Your task to perform on an android device: What's the latest video from Game Informer? Image 0: 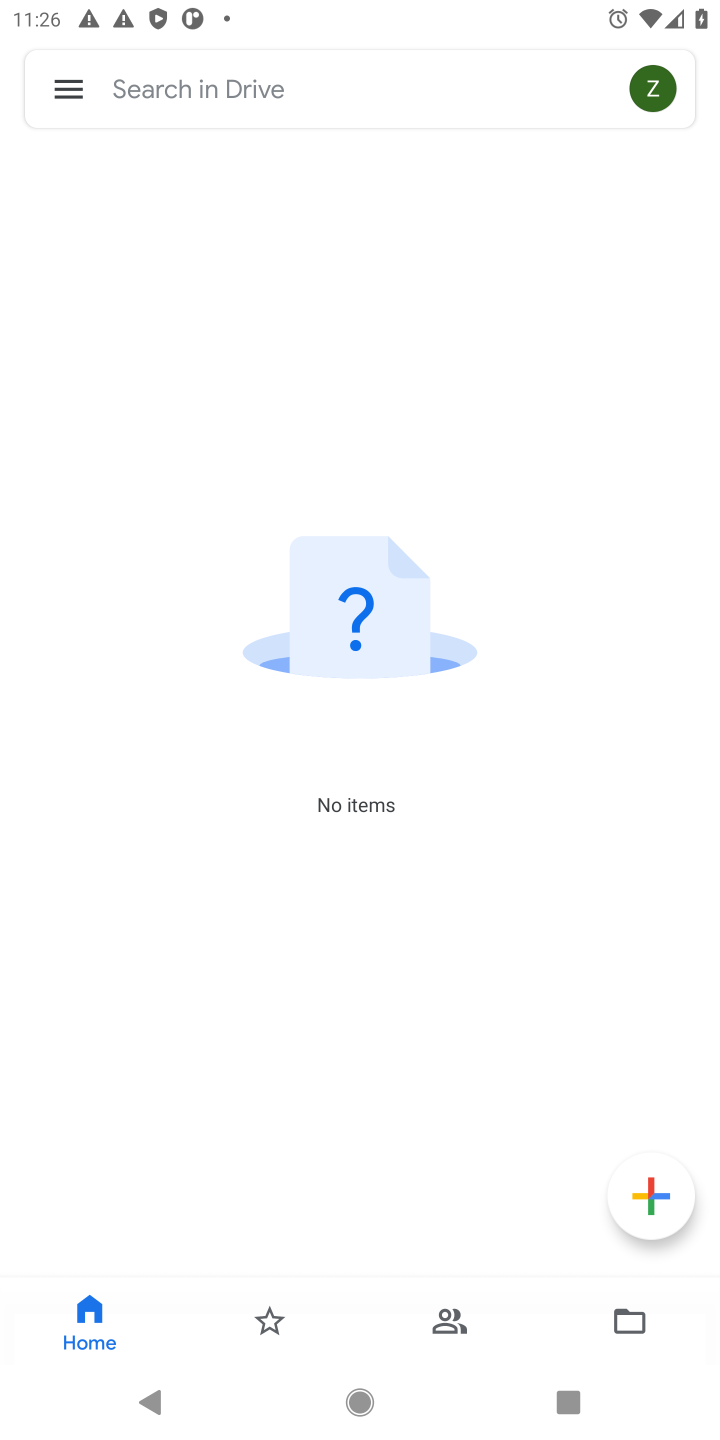
Step 0: press home button
Your task to perform on an android device: What's the latest video from Game Informer? Image 1: 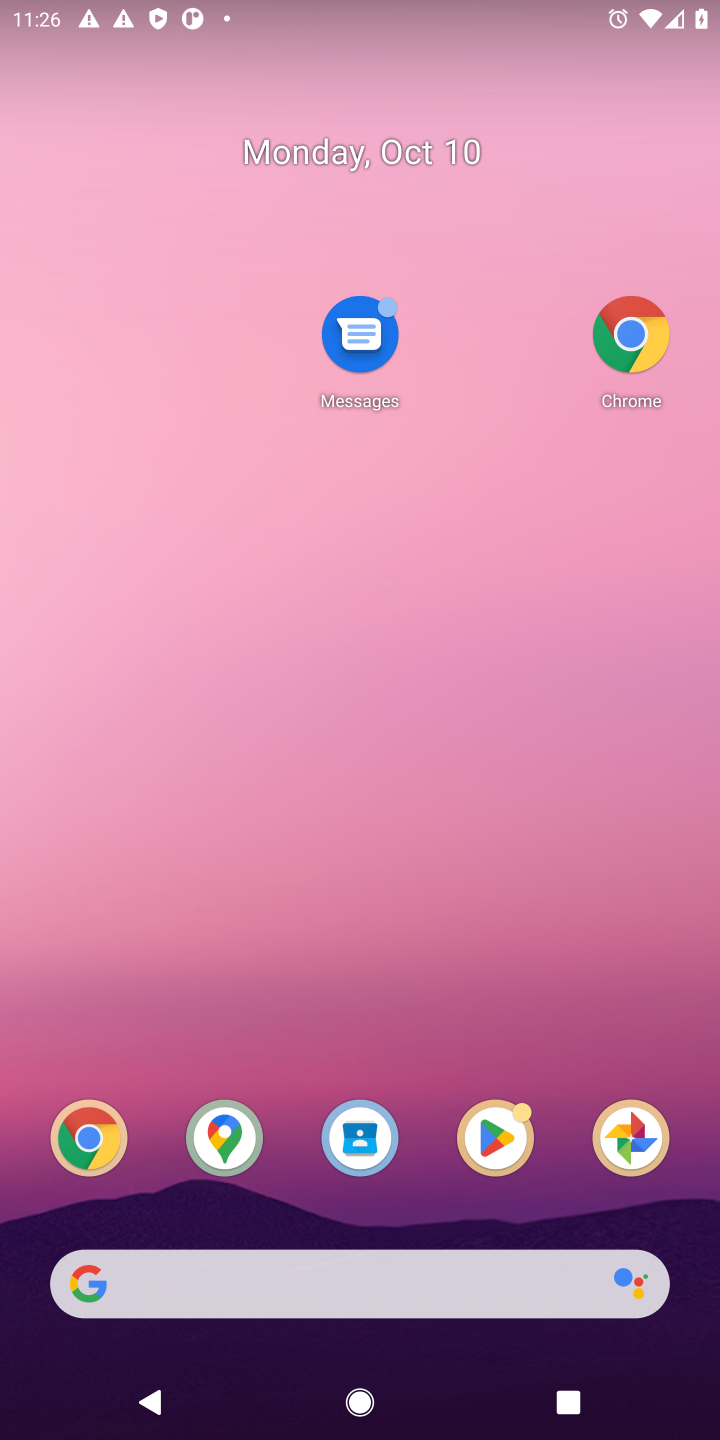
Step 1: click (614, 343)
Your task to perform on an android device: What's the latest video from Game Informer? Image 2: 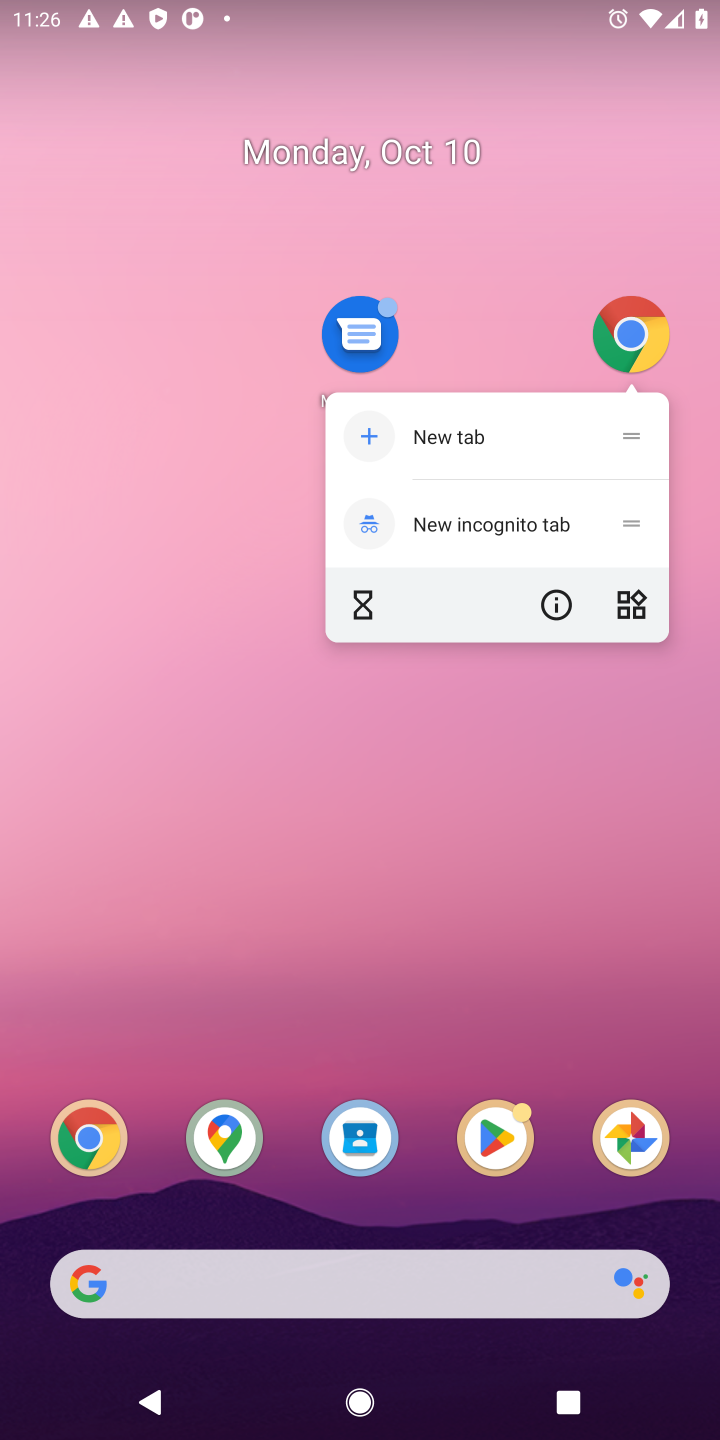
Step 2: click (627, 351)
Your task to perform on an android device: What's the latest video from Game Informer? Image 3: 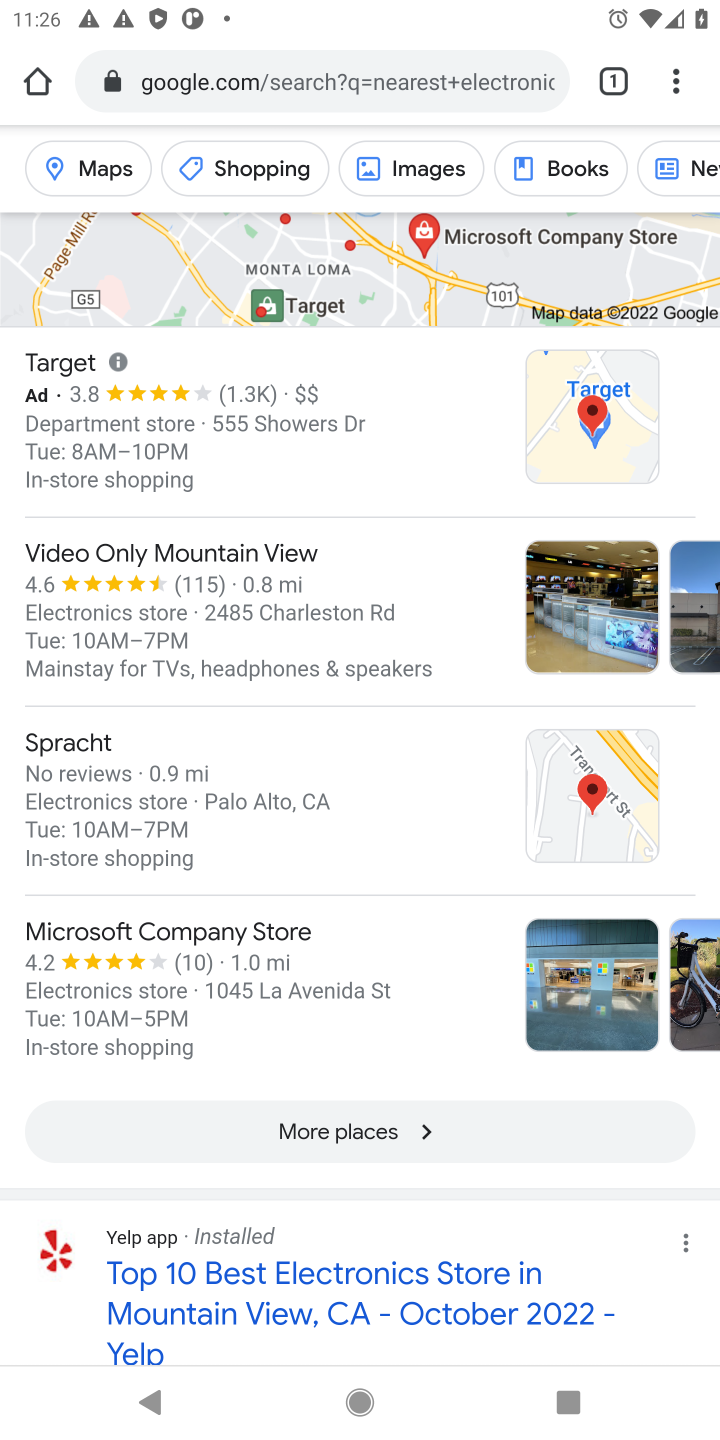
Step 3: click (406, 80)
Your task to perform on an android device: What's the latest video from Game Informer? Image 4: 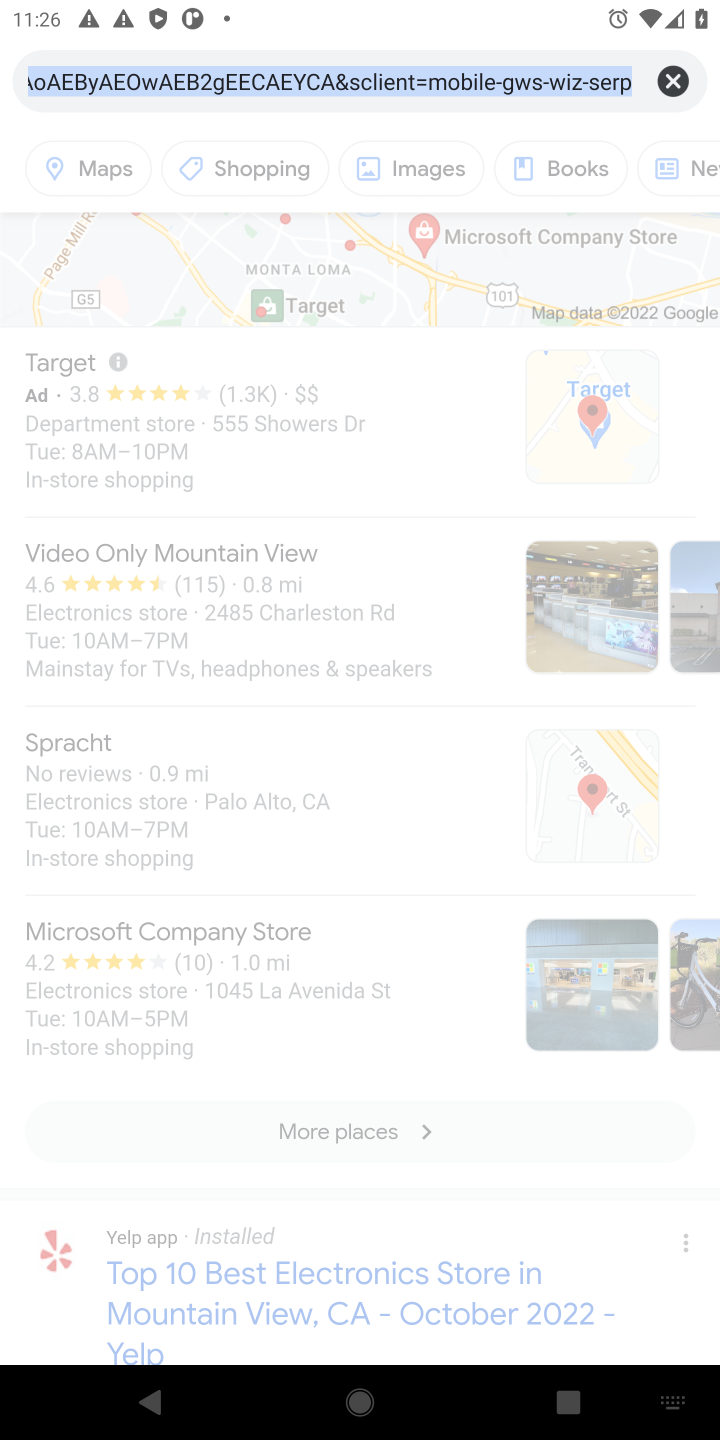
Step 4: type "game informer"
Your task to perform on an android device: What's the latest video from Game Informer? Image 5: 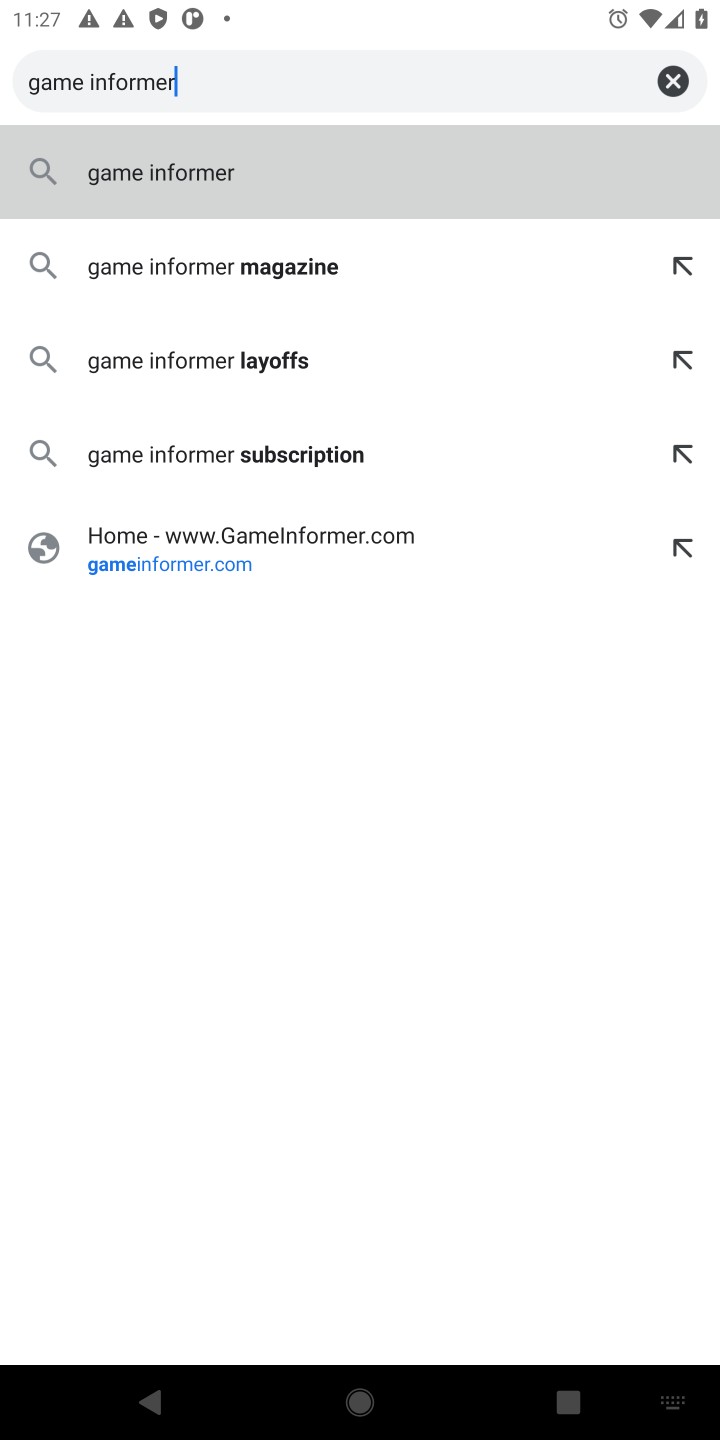
Step 5: press enter
Your task to perform on an android device: What's the latest video from Game Informer? Image 6: 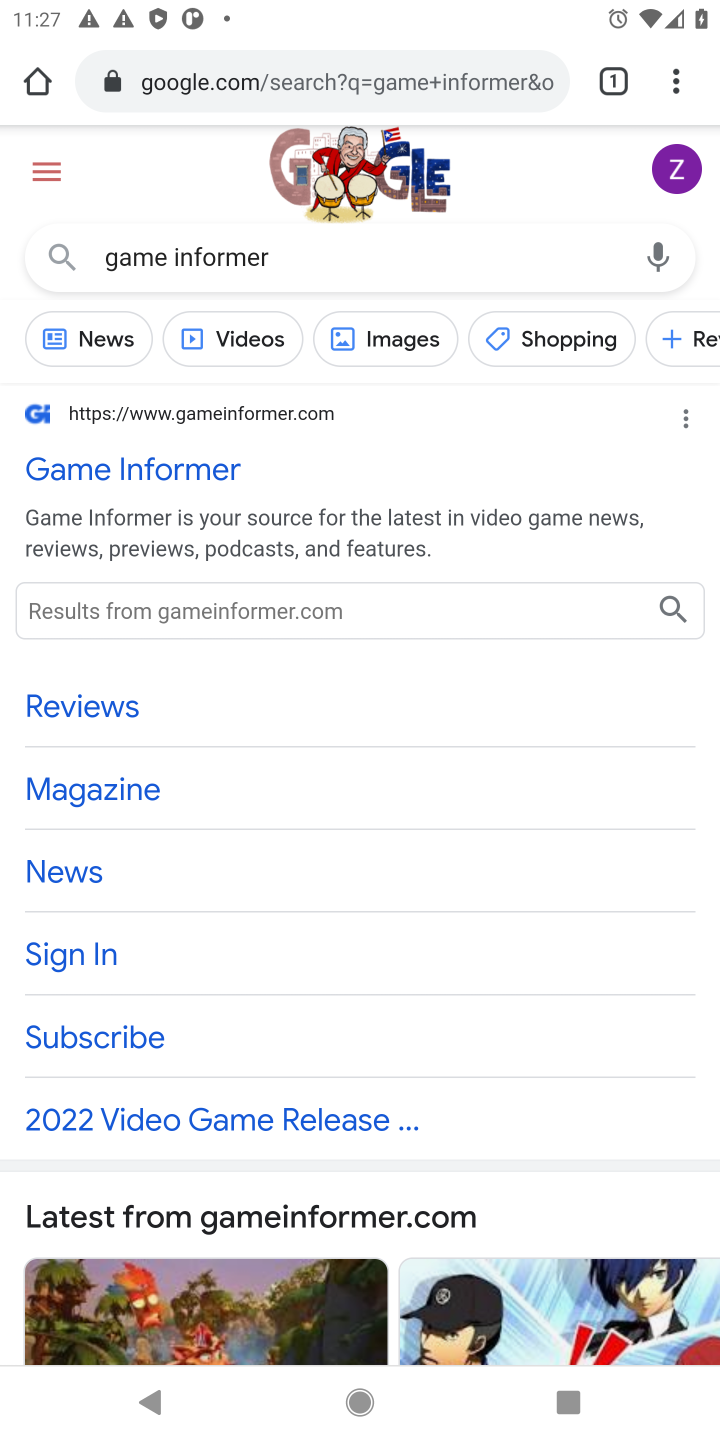
Step 6: drag from (346, 949) to (354, 475)
Your task to perform on an android device: What's the latest video from Game Informer? Image 7: 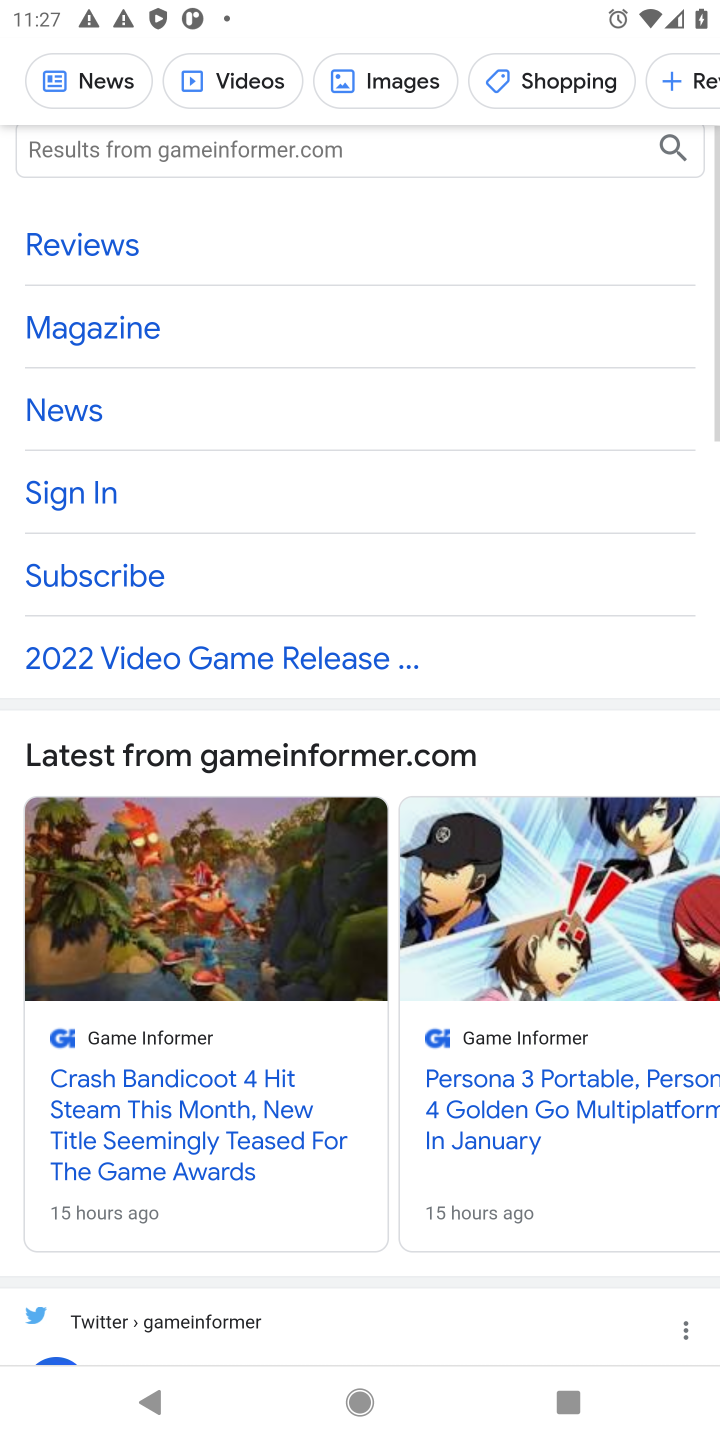
Step 7: drag from (449, 891) to (470, 294)
Your task to perform on an android device: What's the latest video from Game Informer? Image 8: 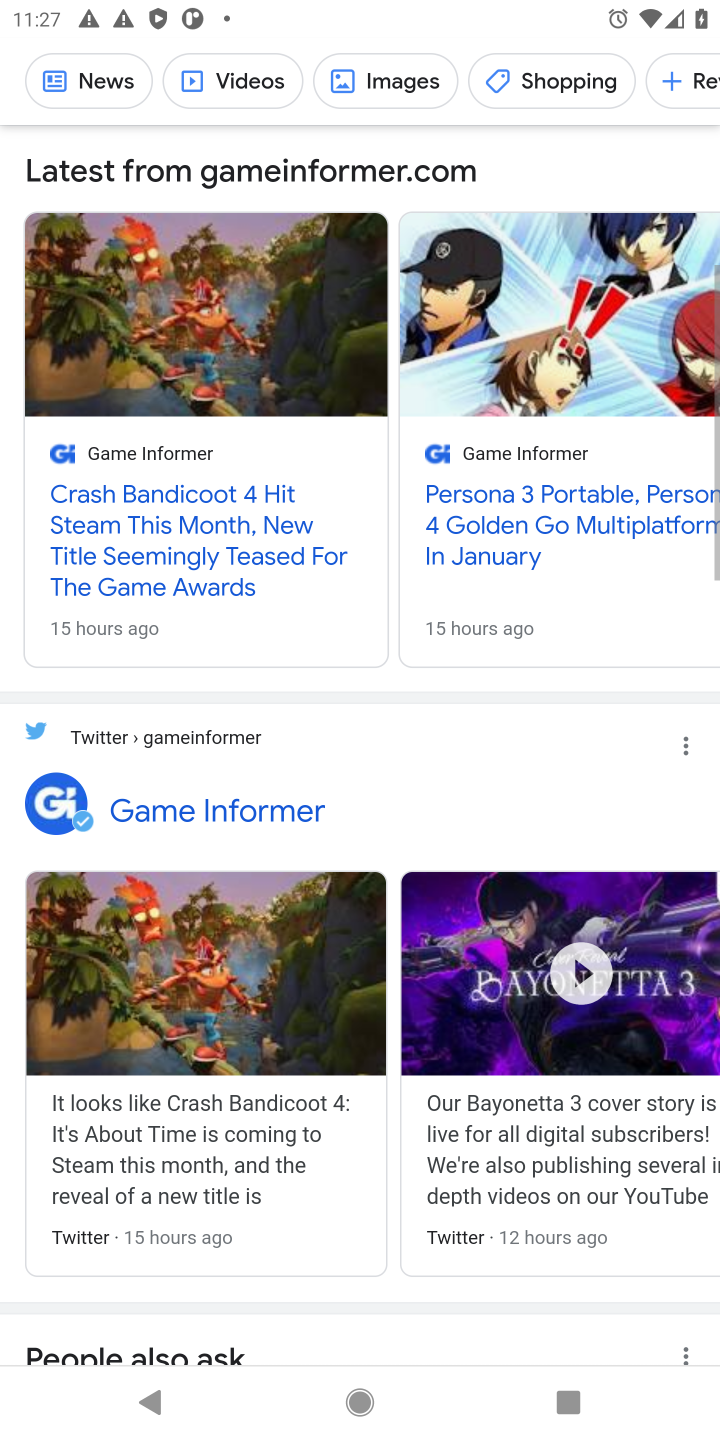
Step 8: drag from (412, 878) to (382, 345)
Your task to perform on an android device: What's the latest video from Game Informer? Image 9: 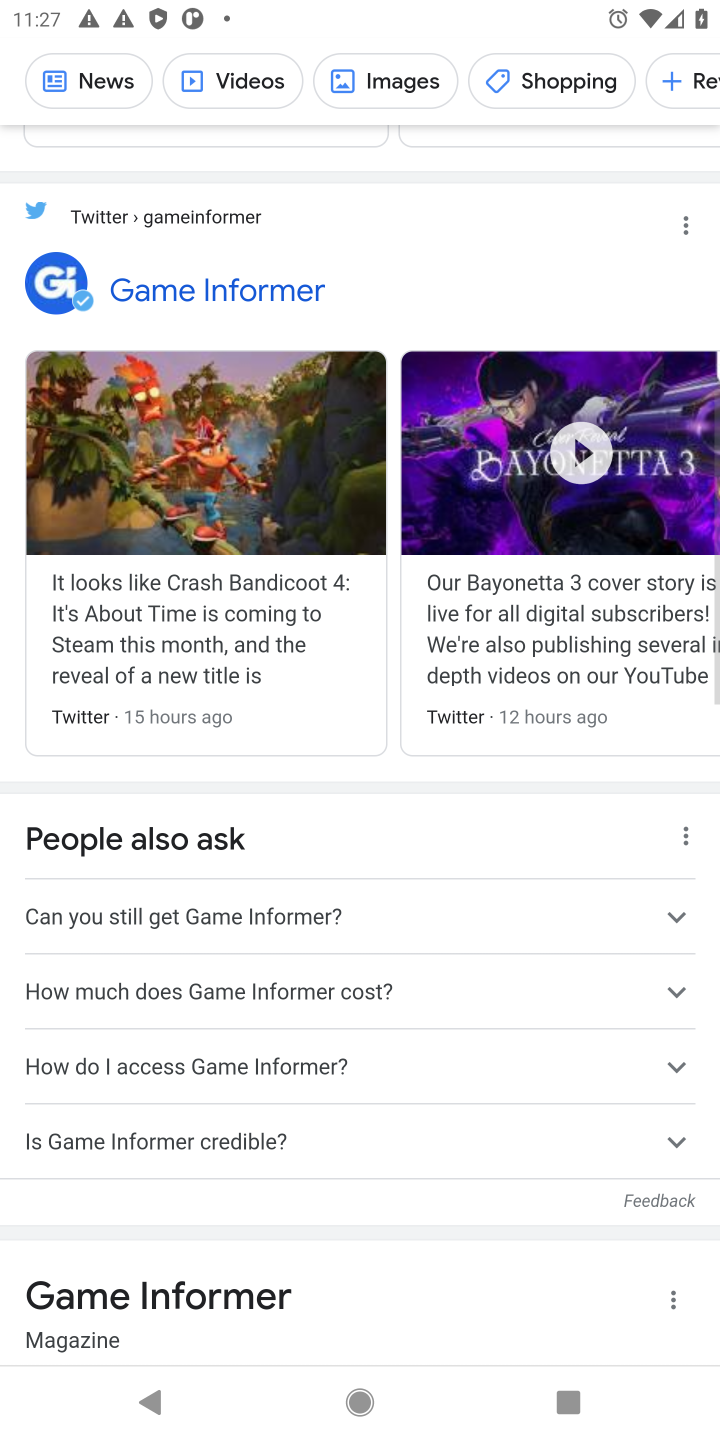
Step 9: drag from (429, 1032) to (371, 313)
Your task to perform on an android device: What's the latest video from Game Informer? Image 10: 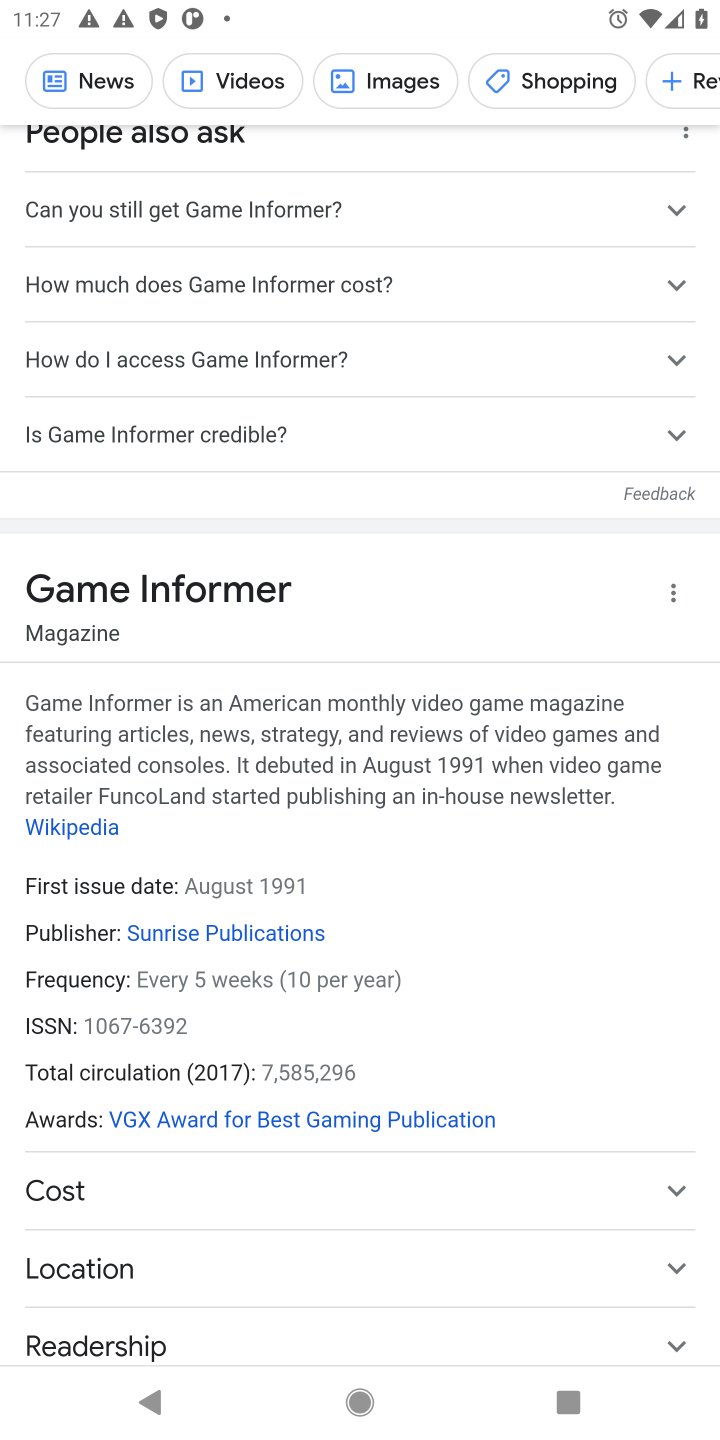
Step 10: drag from (425, 929) to (381, 427)
Your task to perform on an android device: What's the latest video from Game Informer? Image 11: 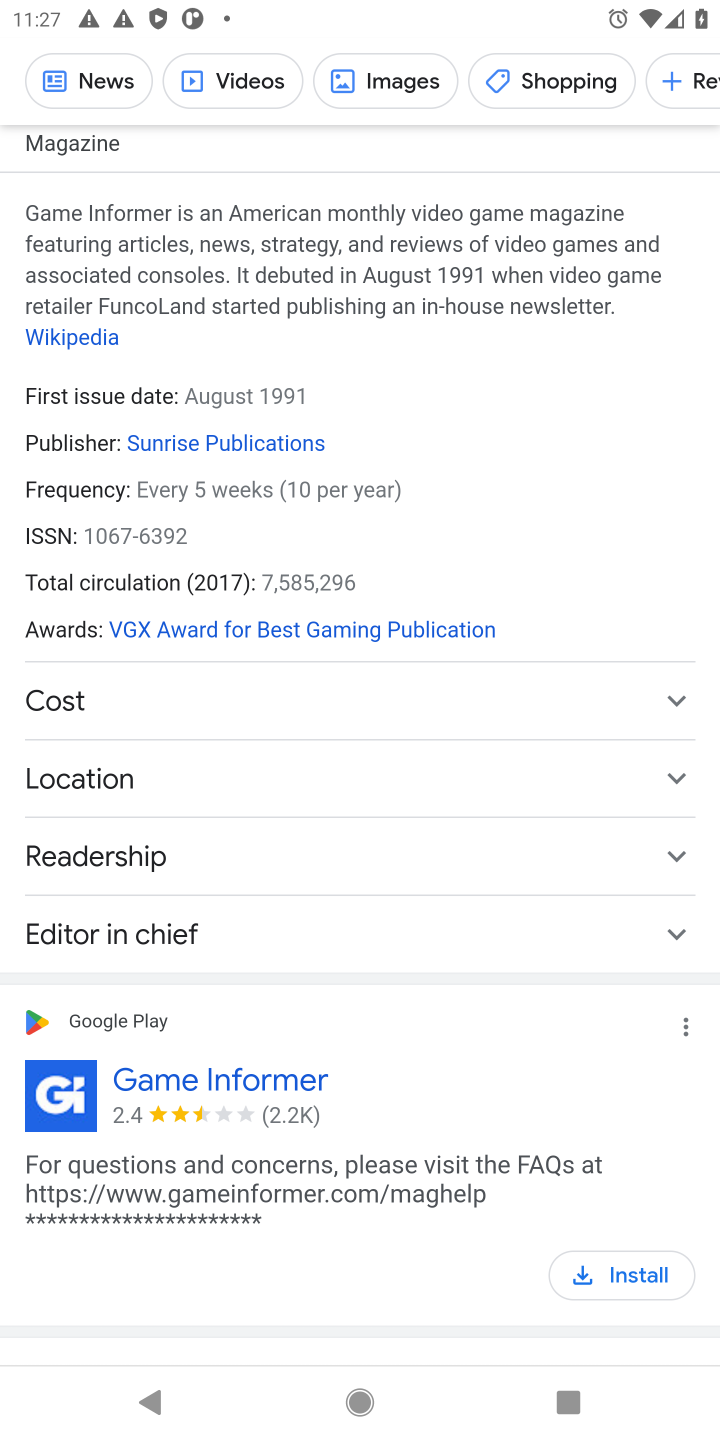
Step 11: drag from (543, 984) to (507, 388)
Your task to perform on an android device: What's the latest video from Game Informer? Image 12: 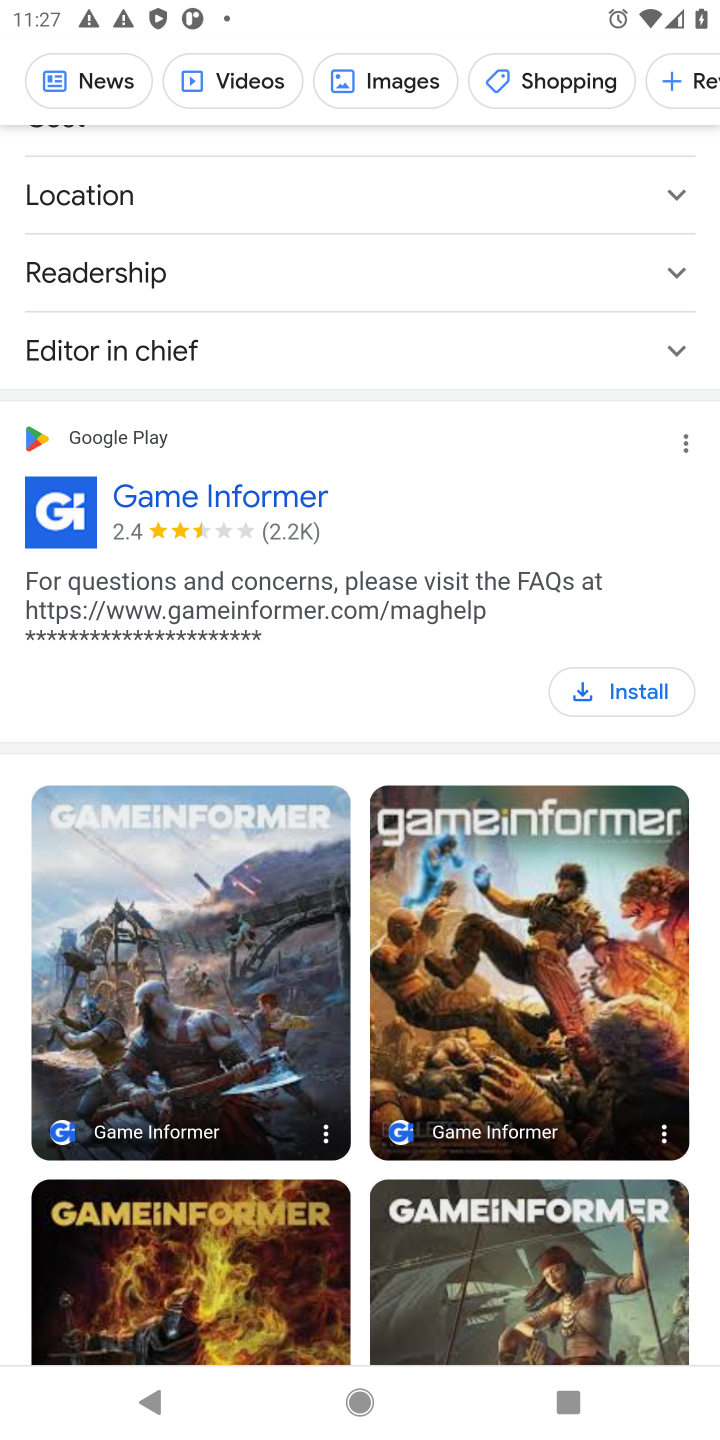
Step 12: drag from (395, 924) to (365, 296)
Your task to perform on an android device: What's the latest video from Game Informer? Image 13: 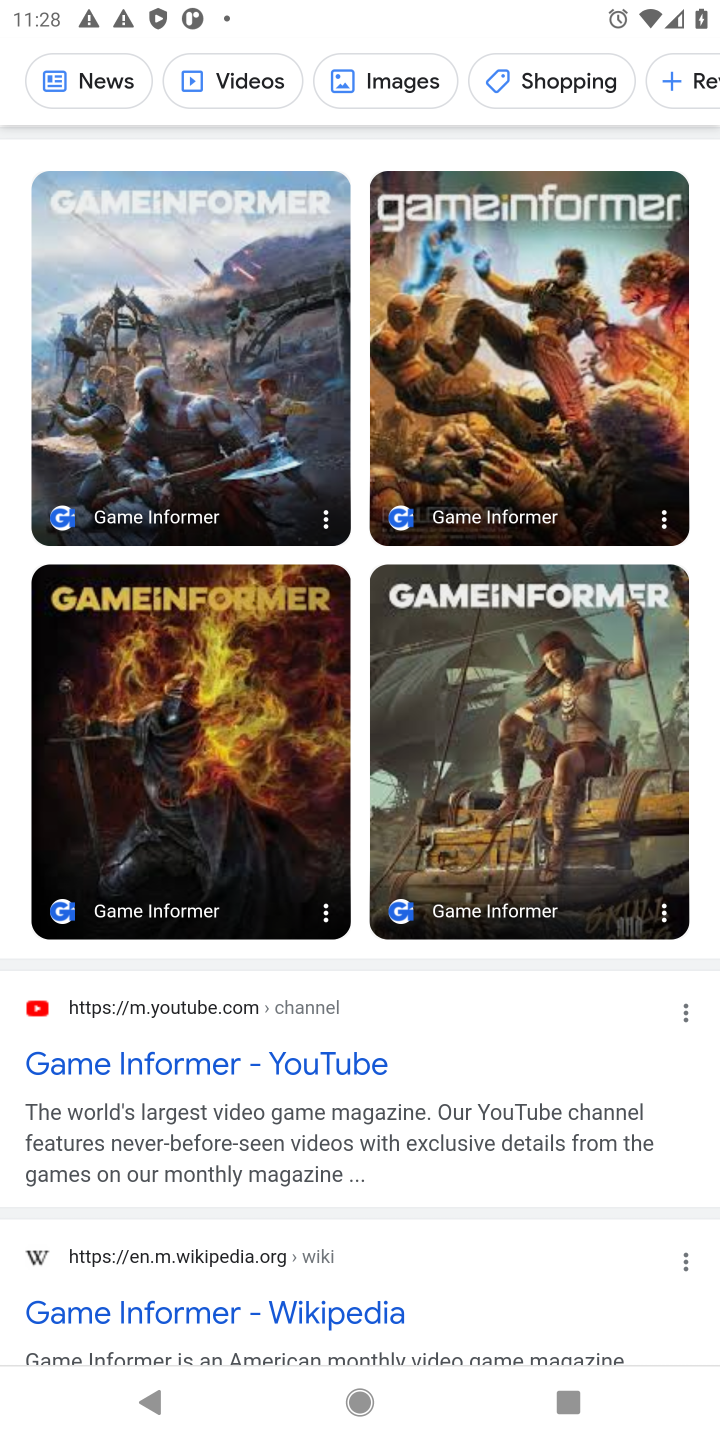
Step 13: click (303, 1067)
Your task to perform on an android device: What's the latest video from Game Informer? Image 14: 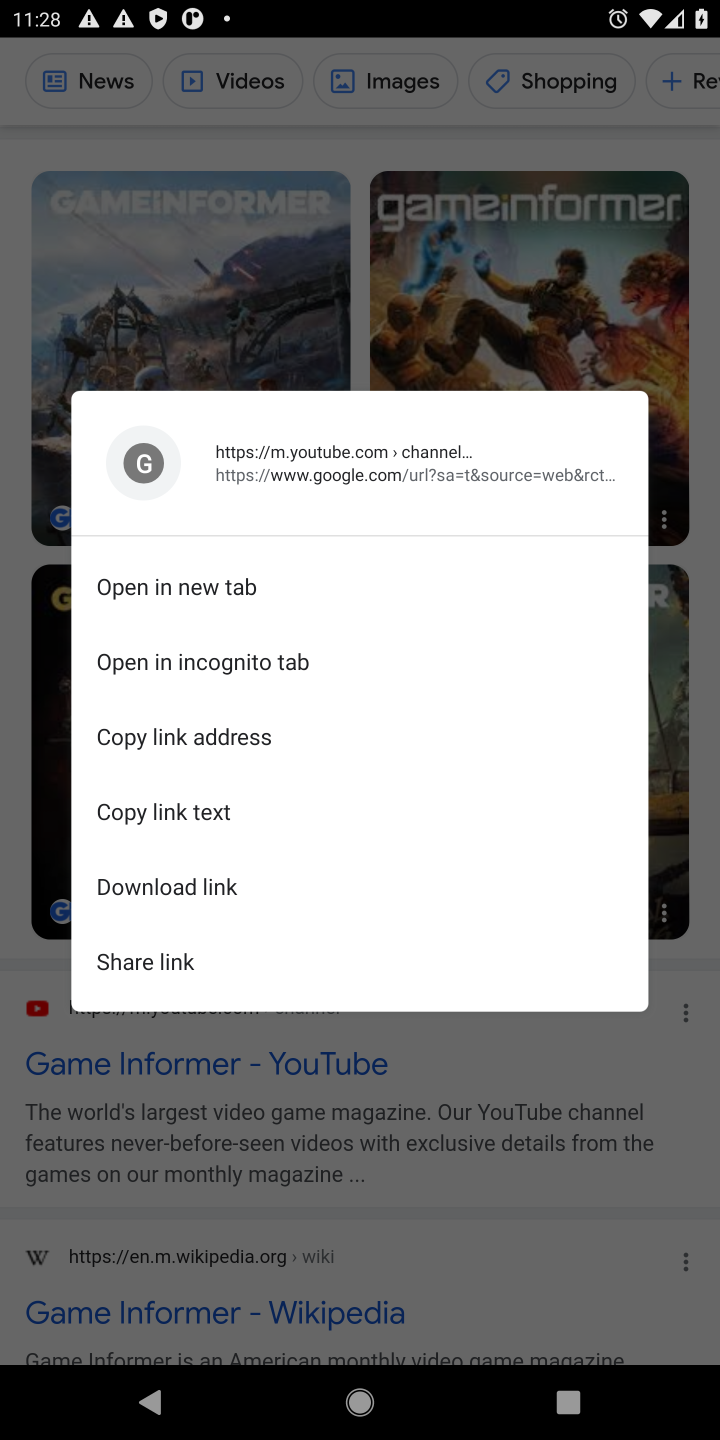
Step 14: click (419, 1142)
Your task to perform on an android device: What's the latest video from Game Informer? Image 15: 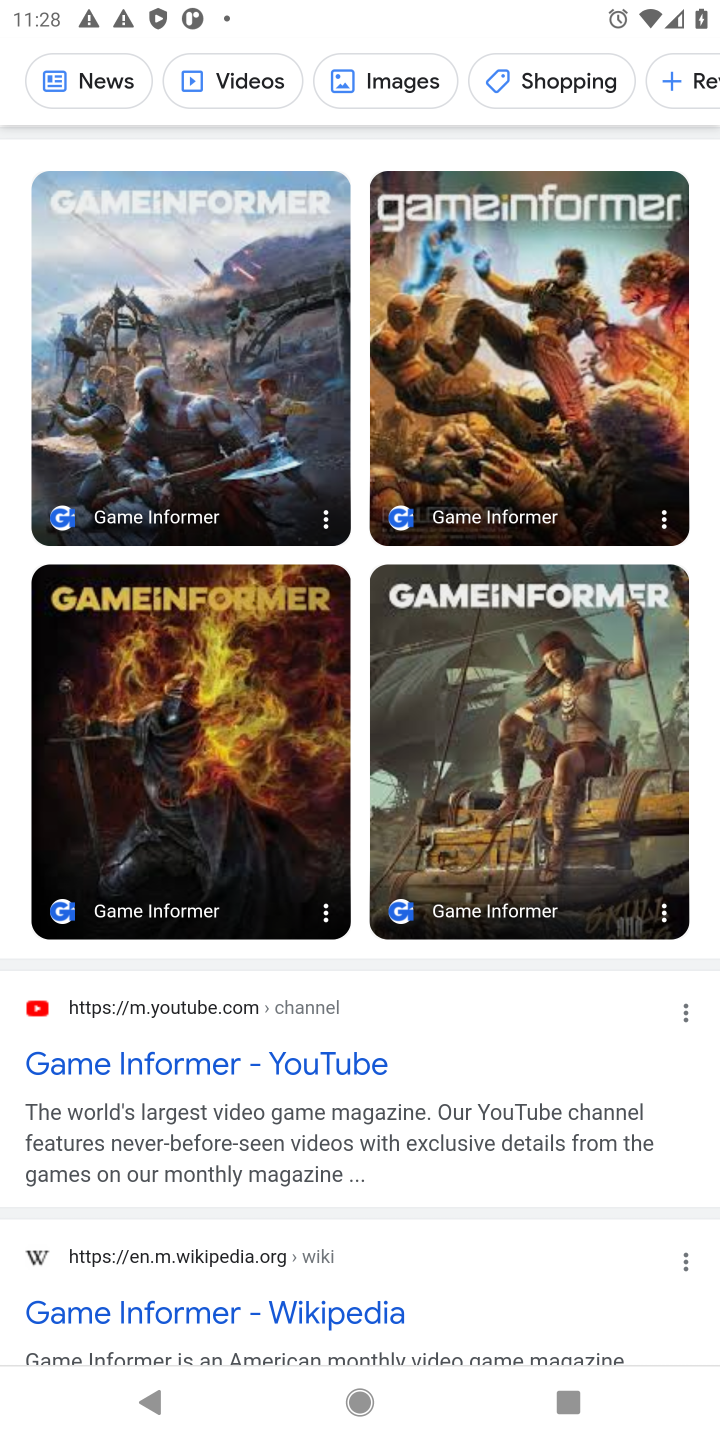
Step 15: click (298, 1062)
Your task to perform on an android device: What's the latest video from Game Informer? Image 16: 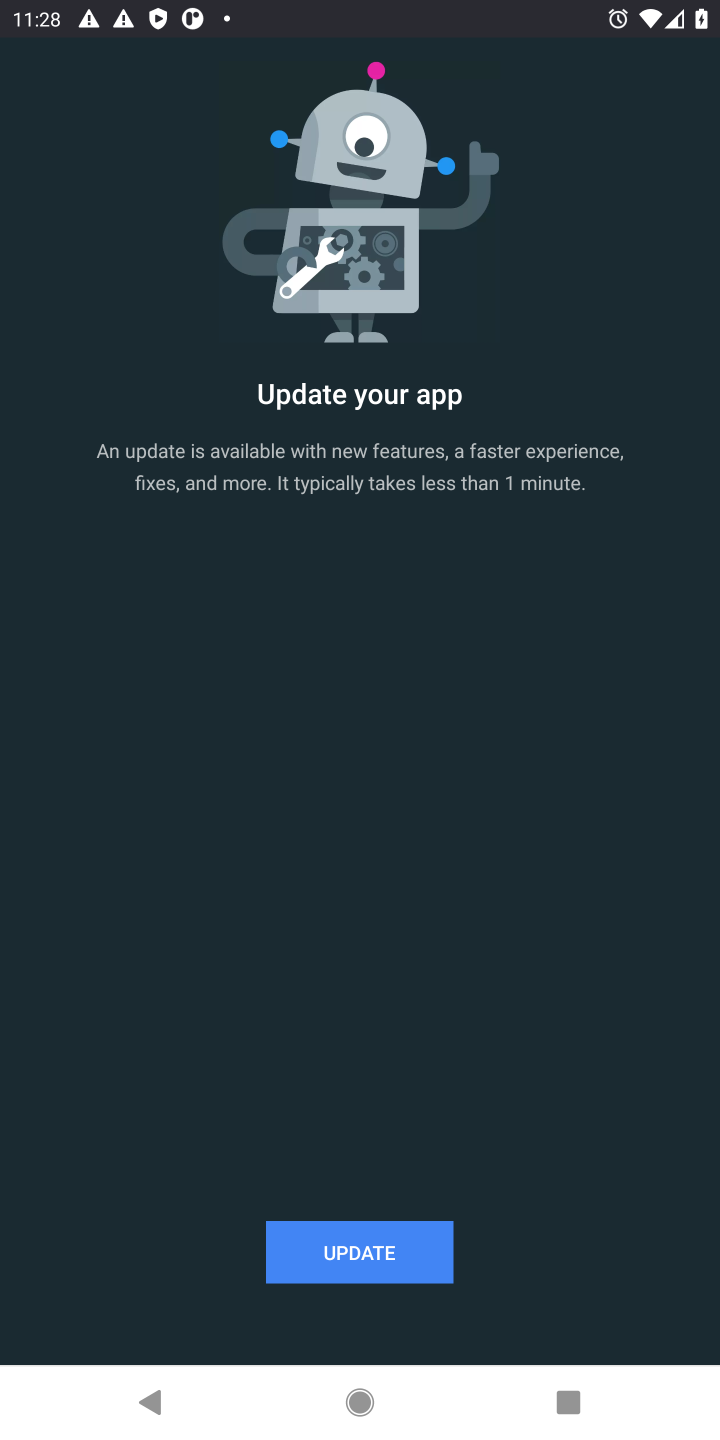
Step 16: click (368, 1260)
Your task to perform on an android device: What's the latest video from Game Informer? Image 17: 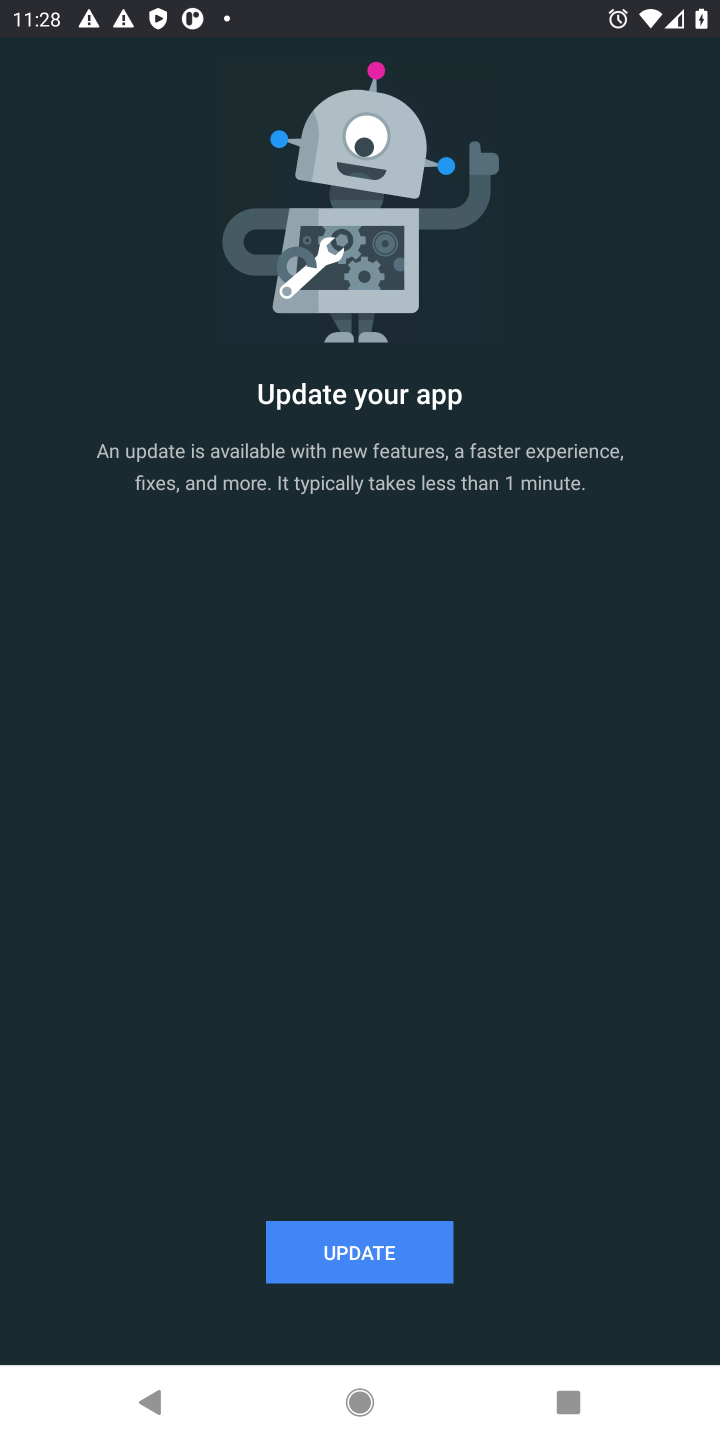
Step 17: press back button
Your task to perform on an android device: What's the latest video from Game Informer? Image 18: 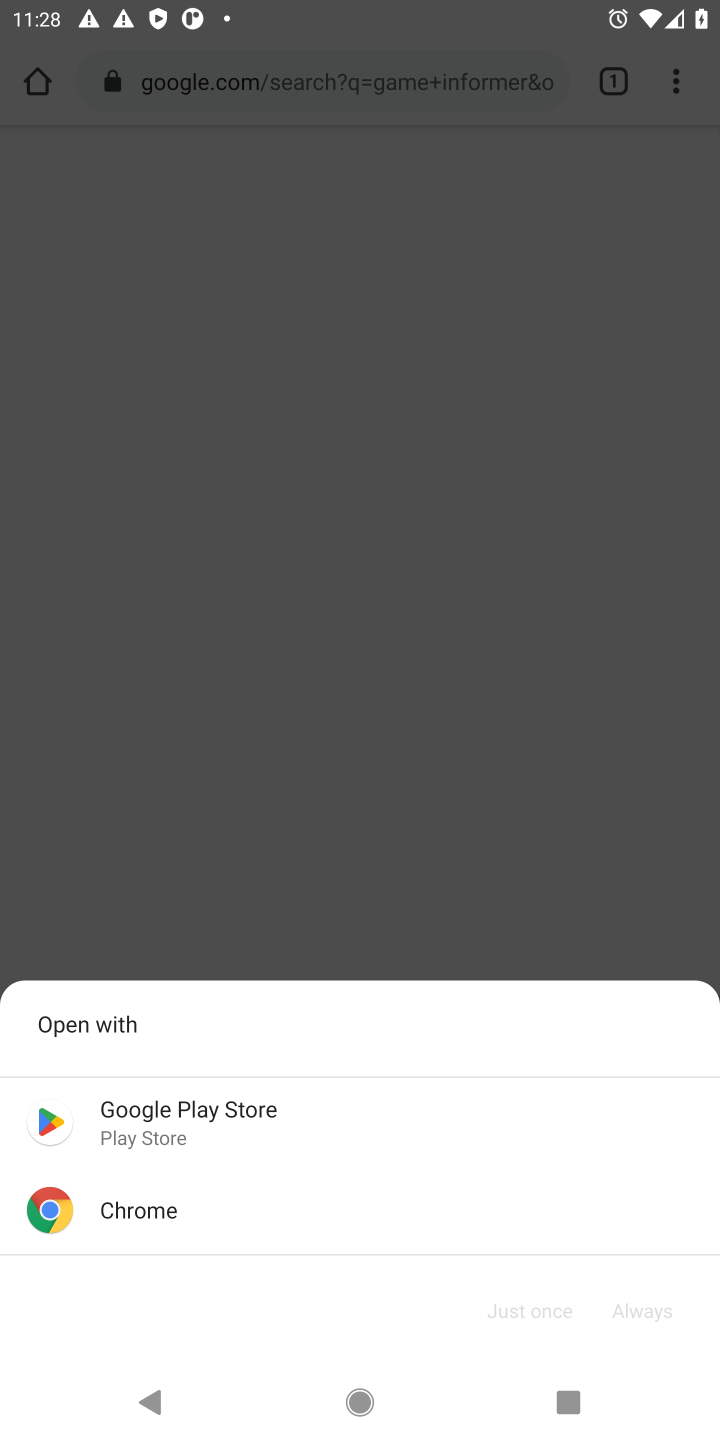
Step 18: click (192, 1223)
Your task to perform on an android device: What's the latest video from Game Informer? Image 19: 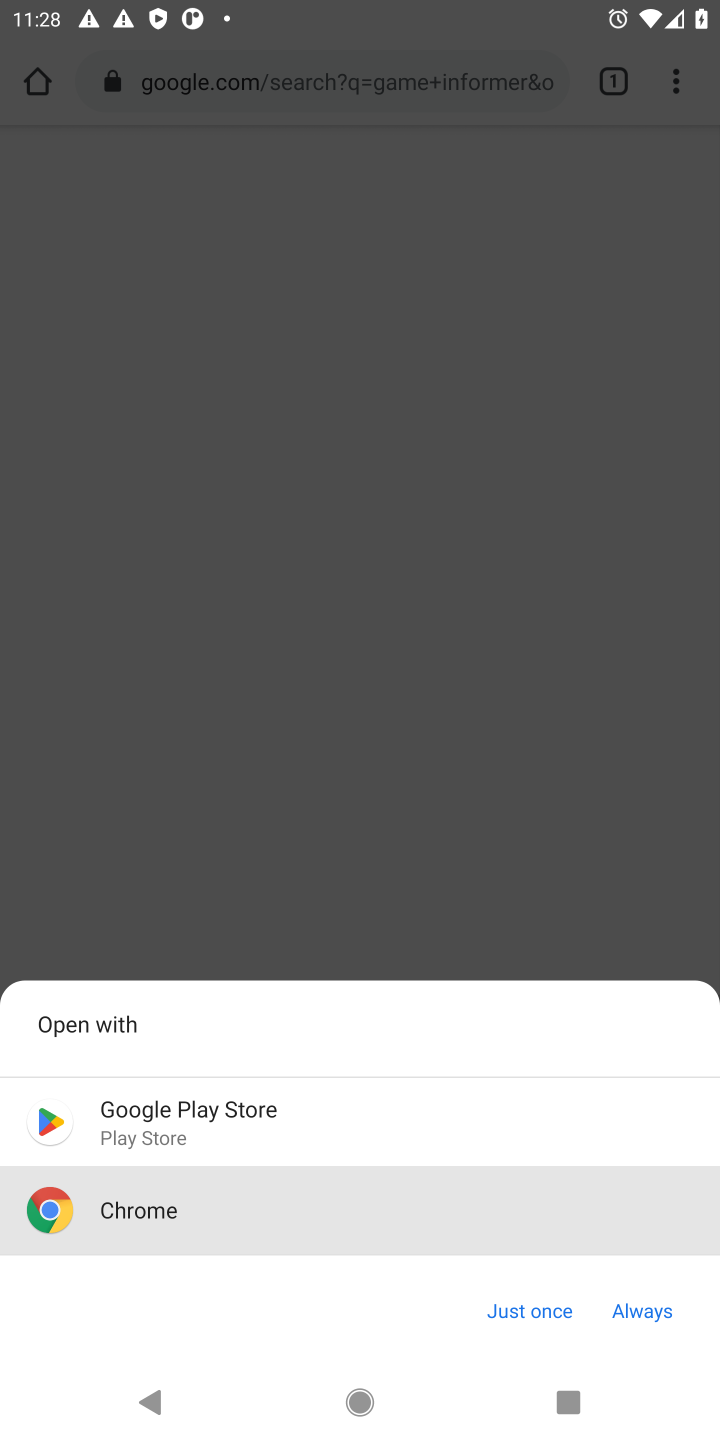
Step 19: click (553, 1305)
Your task to perform on an android device: What's the latest video from Game Informer? Image 20: 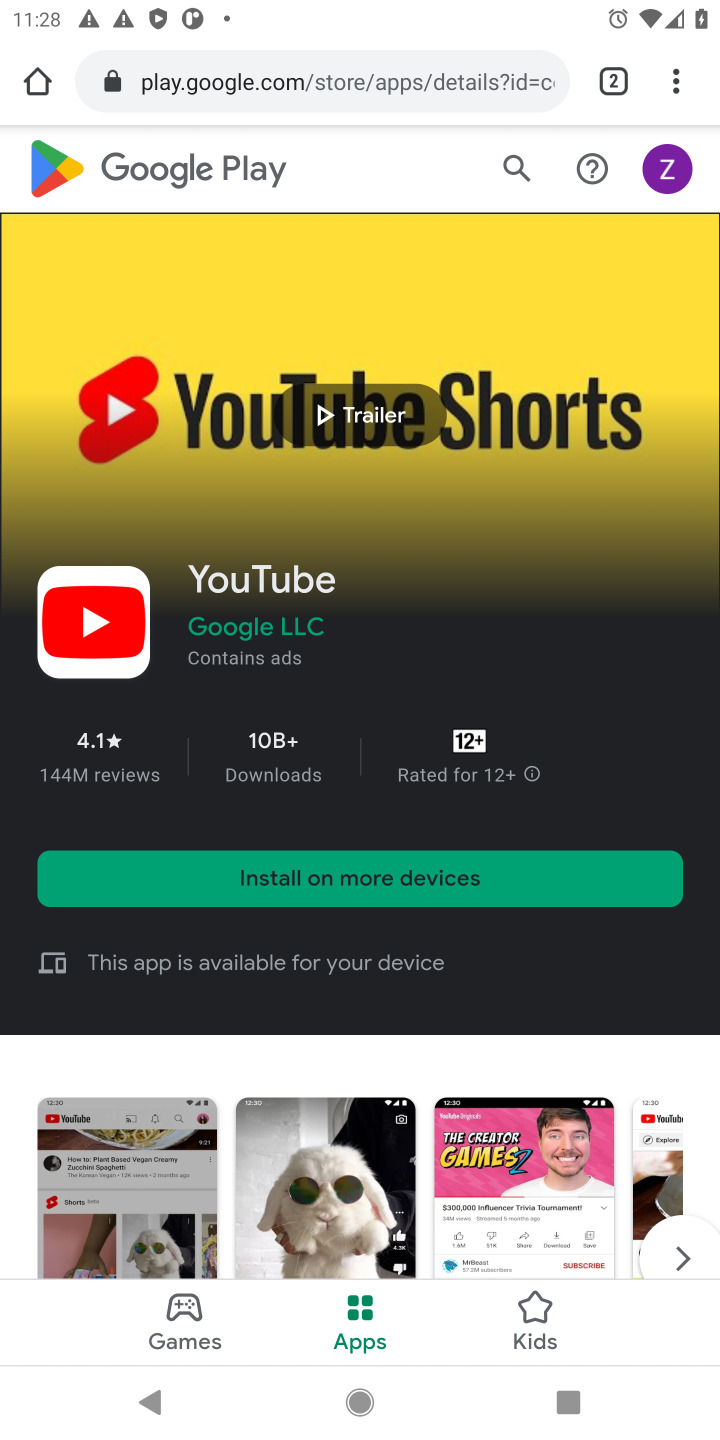
Step 20: press back button
Your task to perform on an android device: What's the latest video from Game Informer? Image 21: 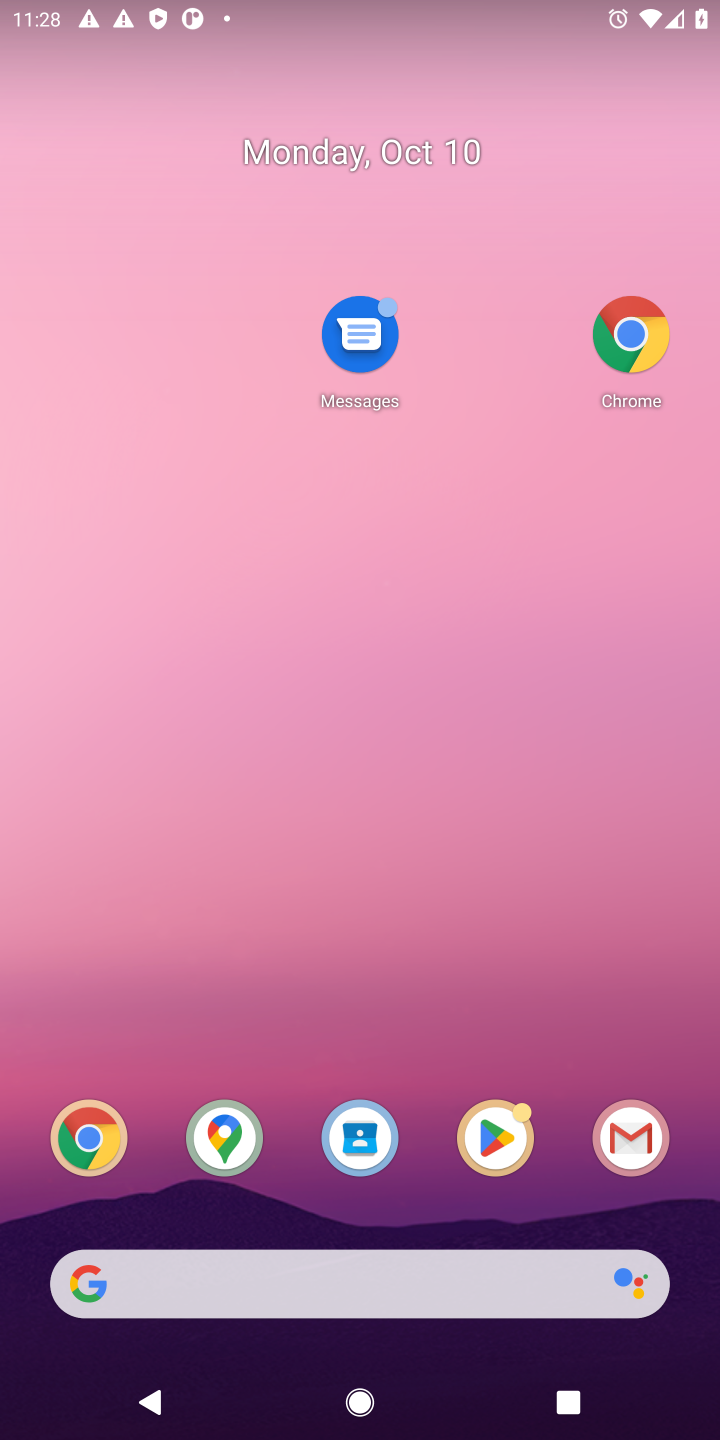
Step 21: click (641, 338)
Your task to perform on an android device: What's the latest video from Game Informer? Image 22: 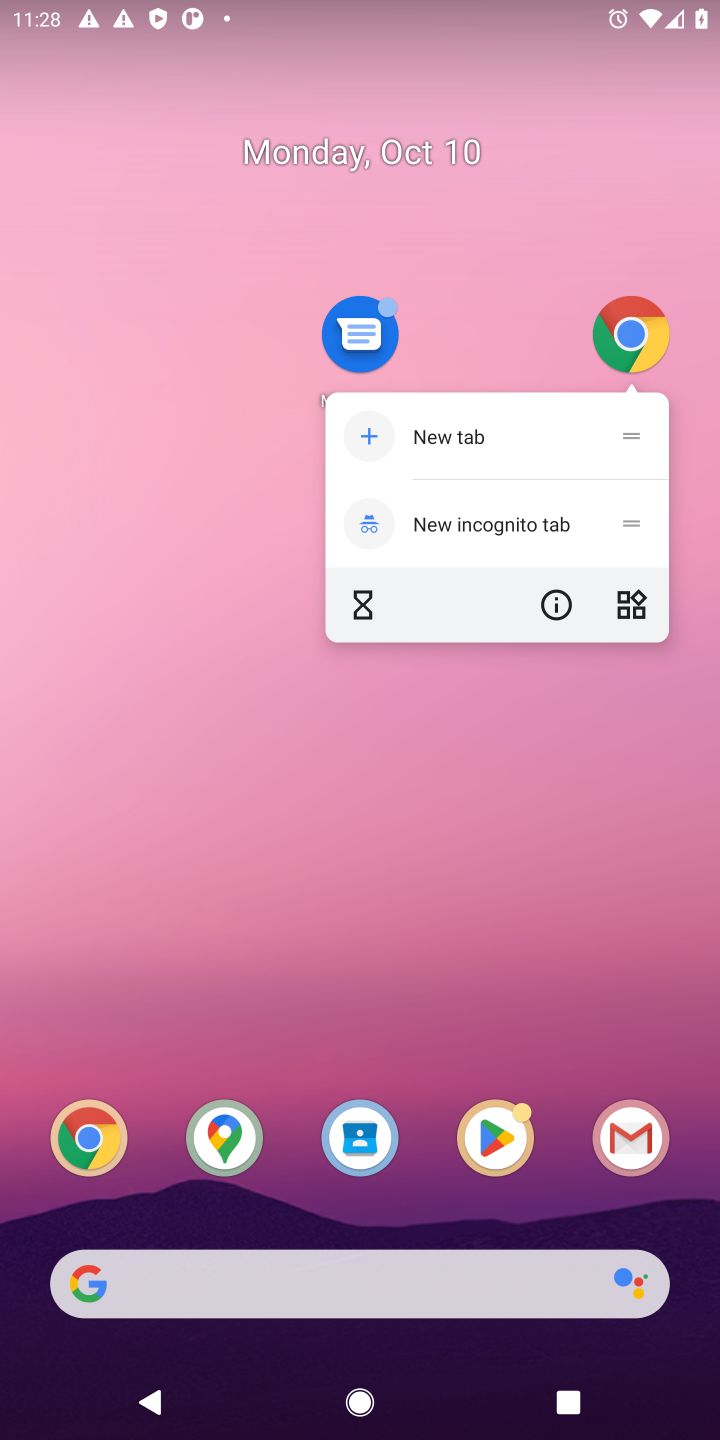
Step 22: click (637, 341)
Your task to perform on an android device: What's the latest video from Game Informer? Image 23: 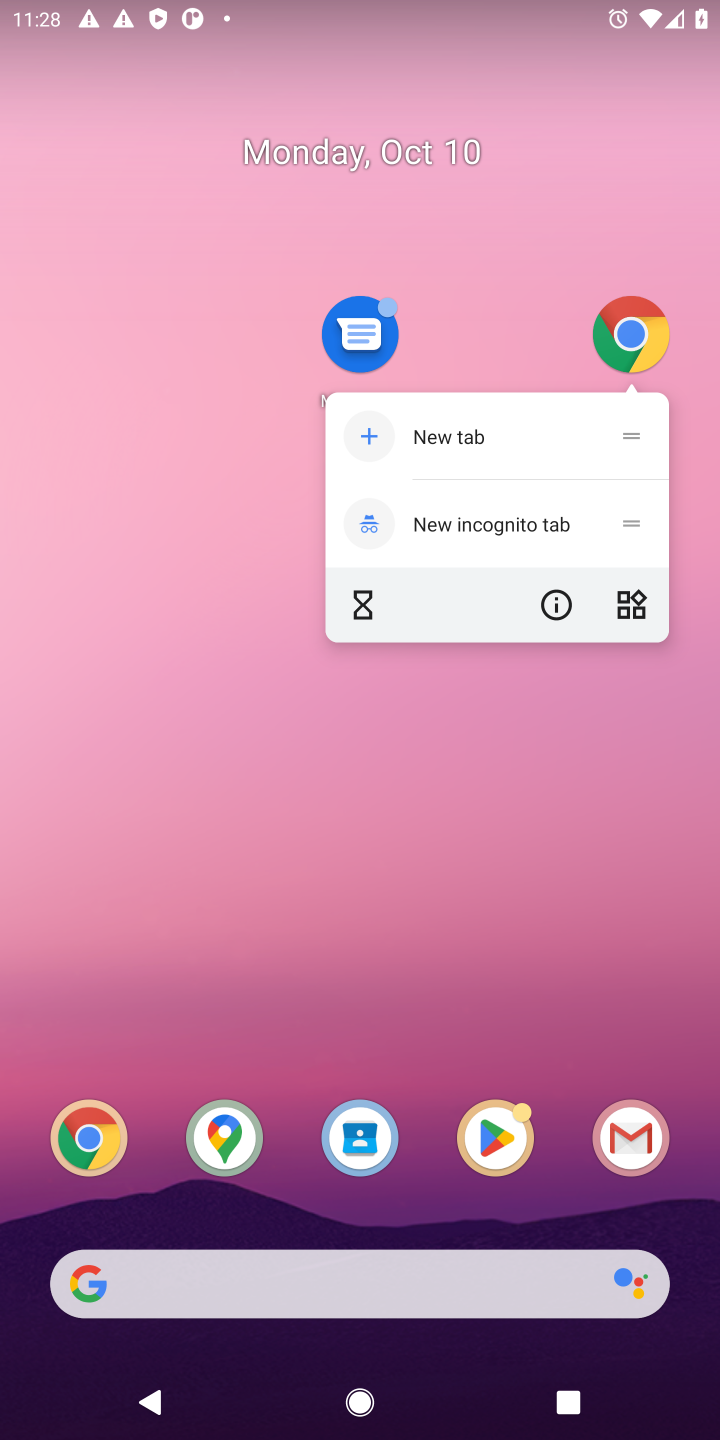
Step 23: click (639, 329)
Your task to perform on an android device: What's the latest video from Game Informer? Image 24: 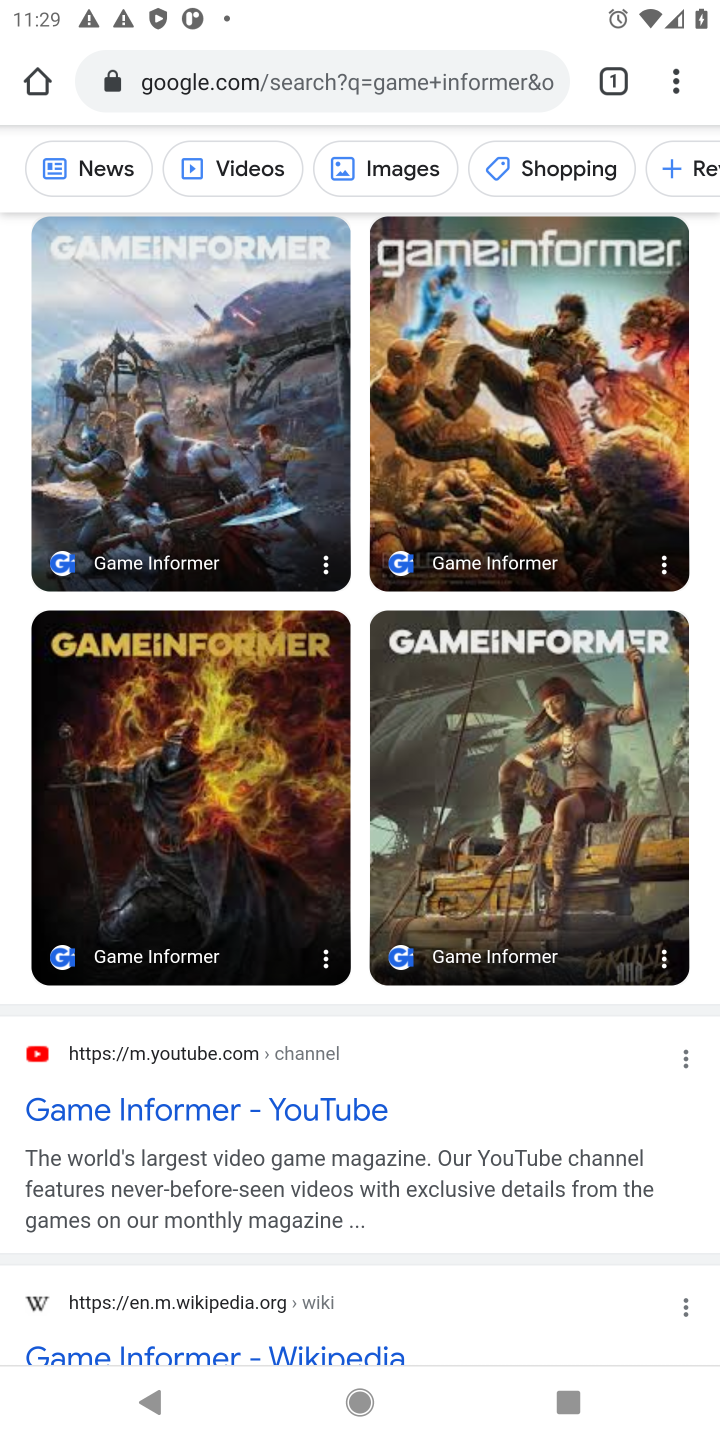
Step 24: press back button
Your task to perform on an android device: What's the latest video from Game Informer? Image 25: 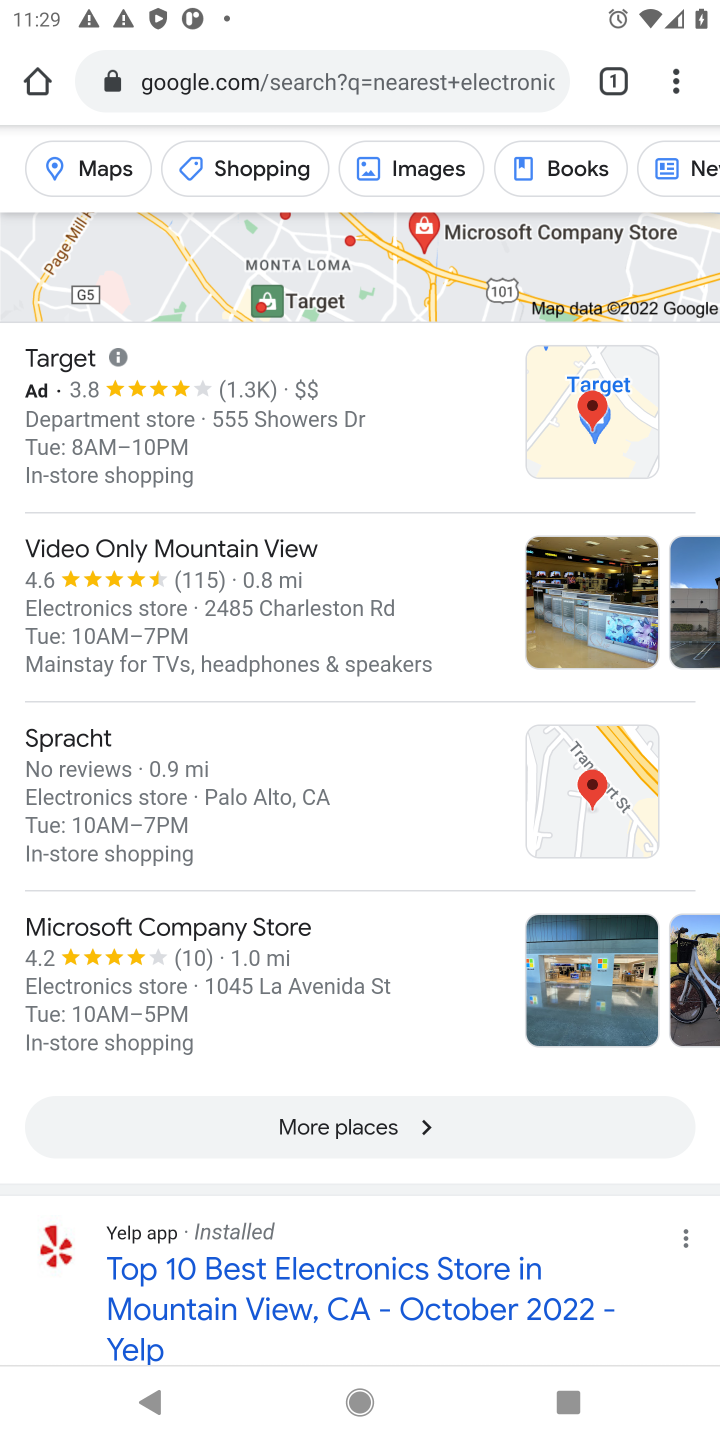
Step 25: click (305, 71)
Your task to perform on an android device: What's the latest video from Game Informer? Image 26: 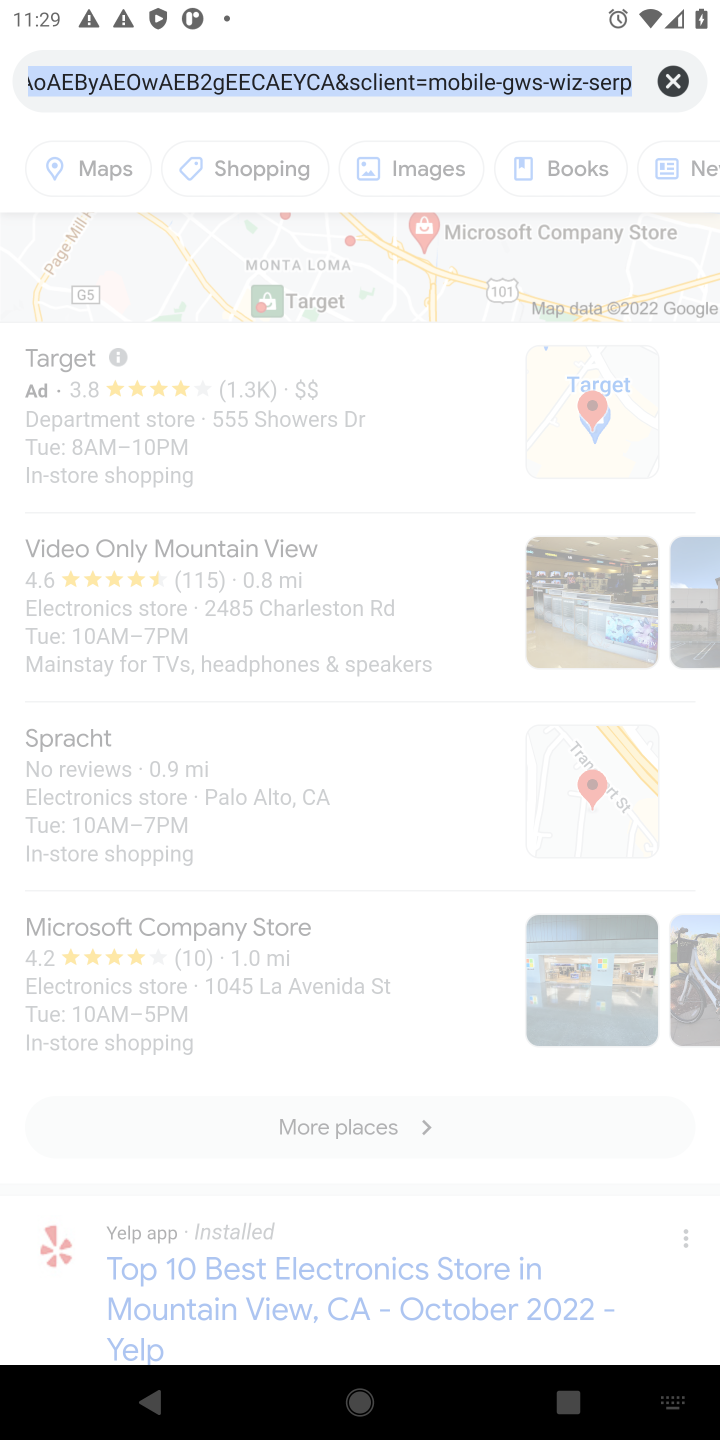
Step 26: type "game informer"
Your task to perform on an android device: What's the latest video from Game Informer? Image 27: 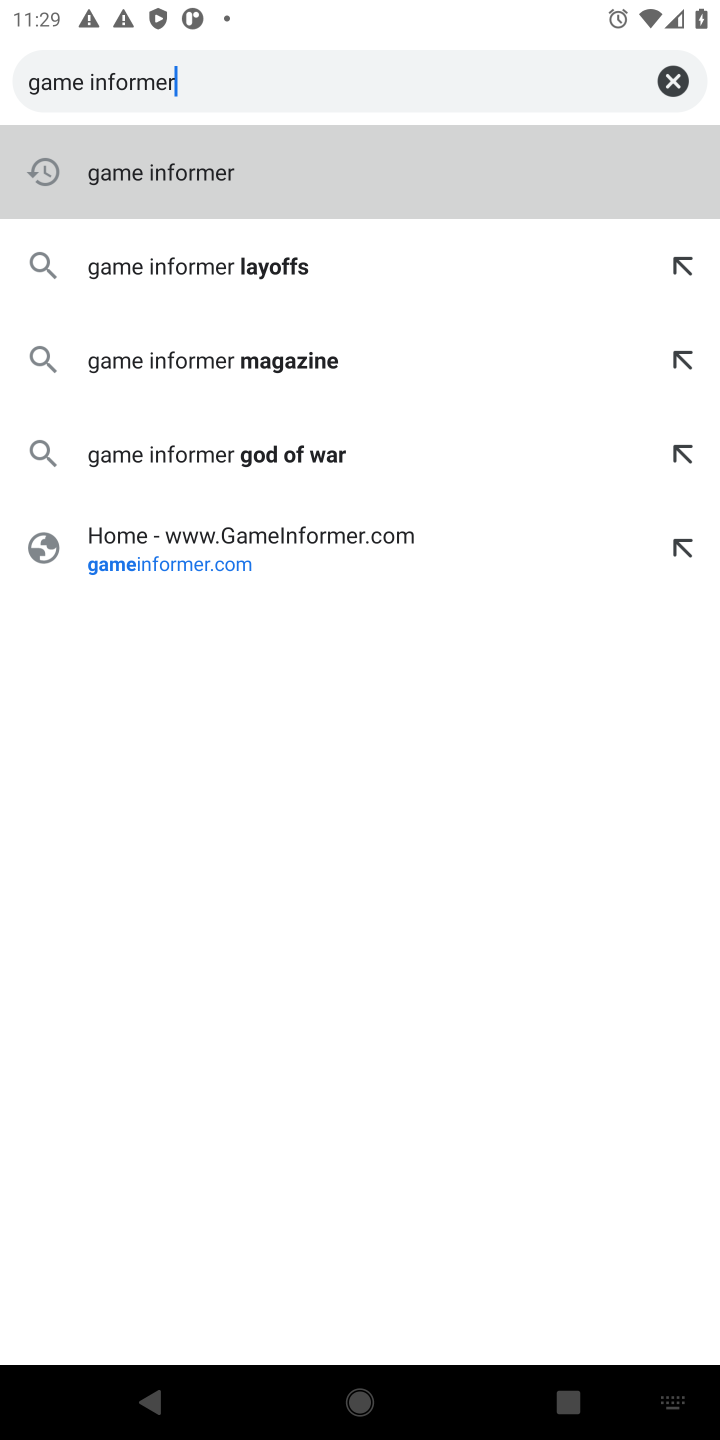
Step 27: press enter
Your task to perform on an android device: What's the latest video from Game Informer? Image 28: 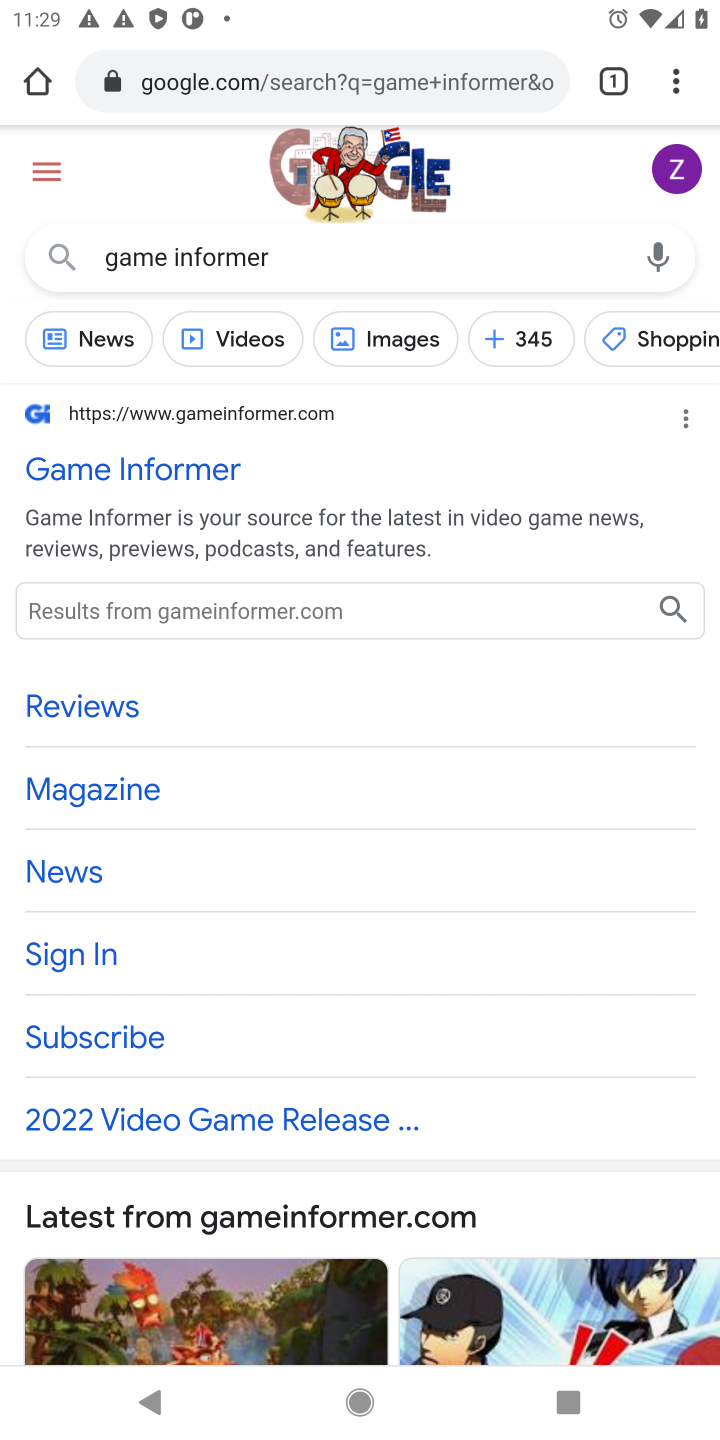
Step 28: drag from (604, 766) to (579, 208)
Your task to perform on an android device: What's the latest video from Game Informer? Image 29: 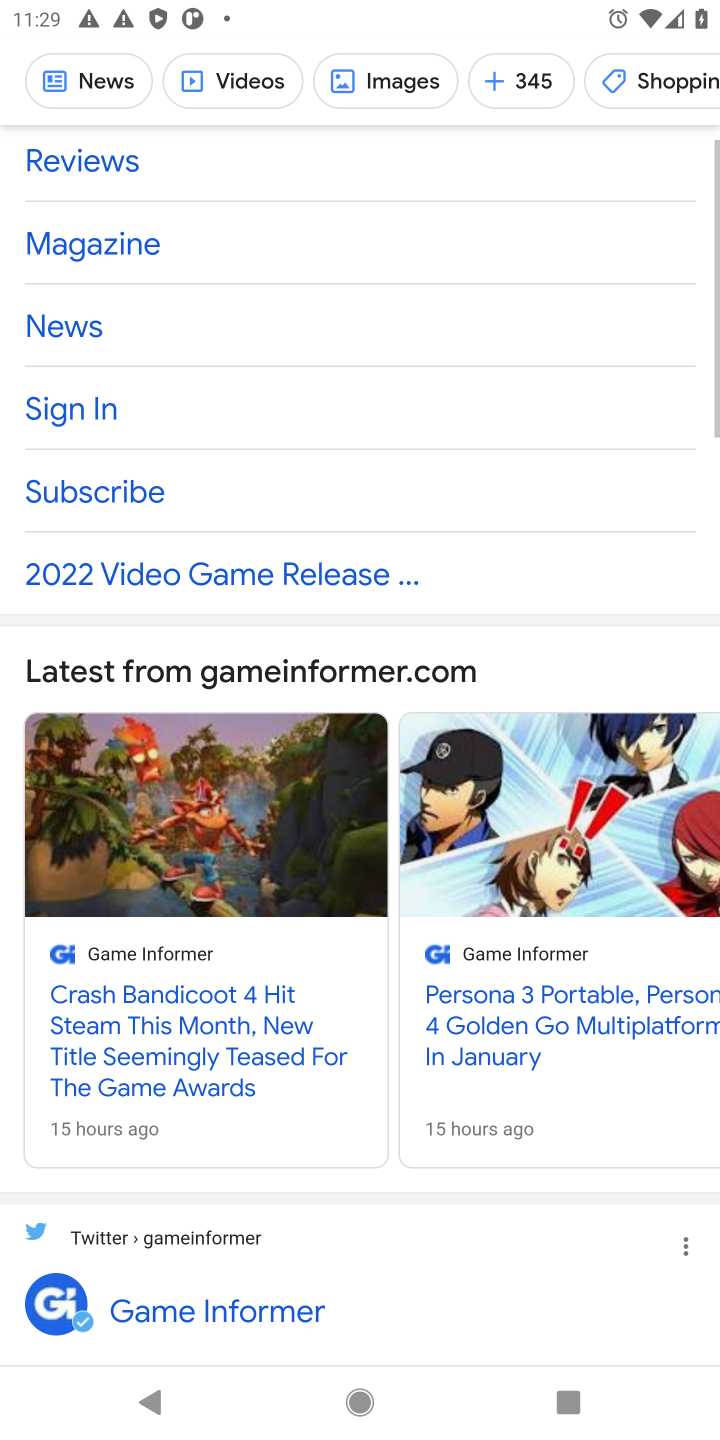
Step 29: drag from (458, 708) to (433, 290)
Your task to perform on an android device: What's the latest video from Game Informer? Image 30: 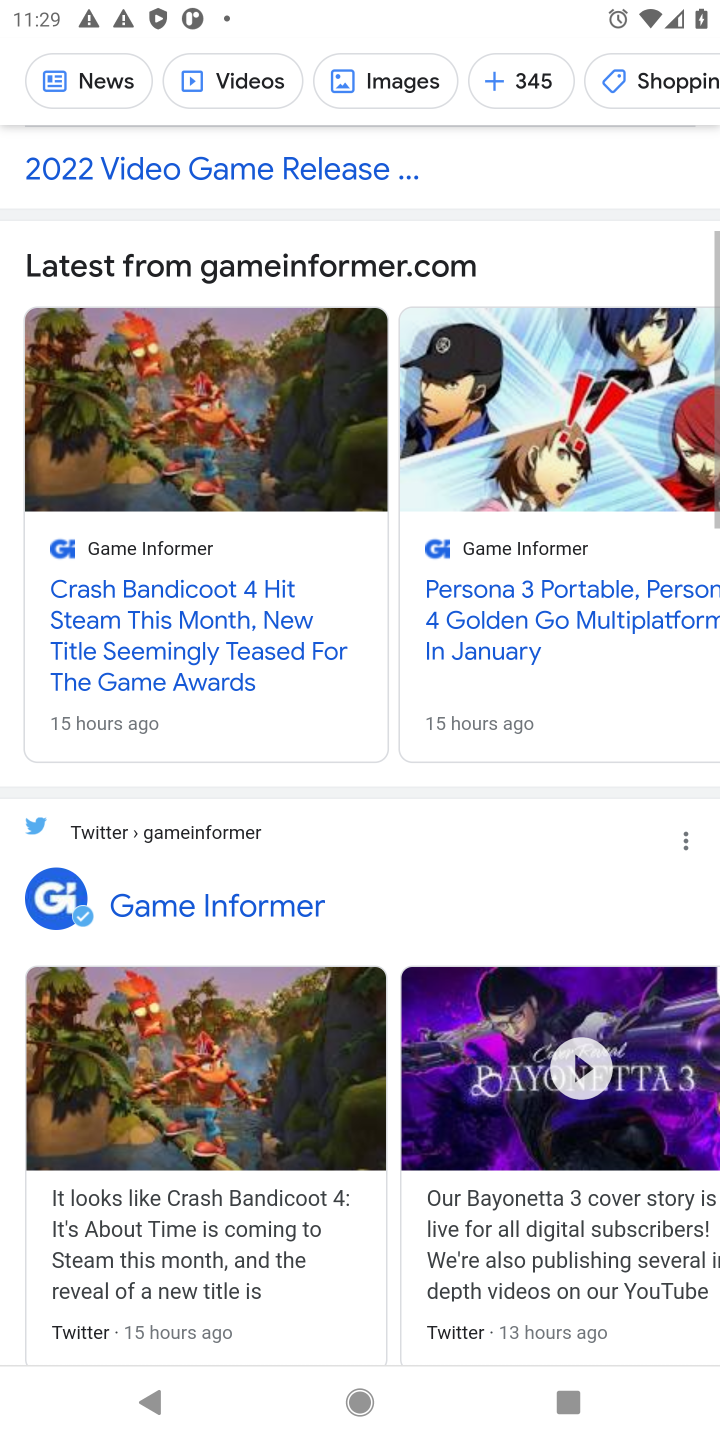
Step 30: drag from (411, 982) to (386, 305)
Your task to perform on an android device: What's the latest video from Game Informer? Image 31: 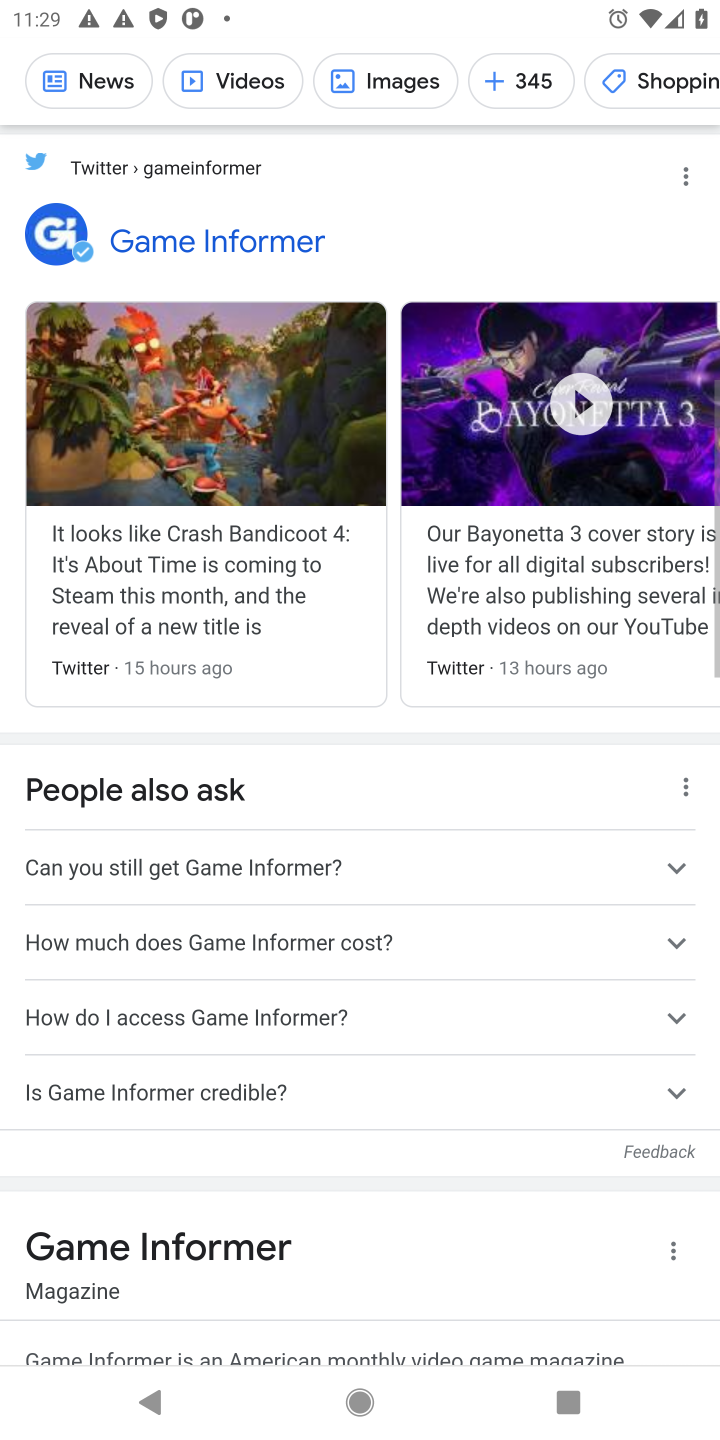
Step 31: drag from (400, 972) to (413, 348)
Your task to perform on an android device: What's the latest video from Game Informer? Image 32: 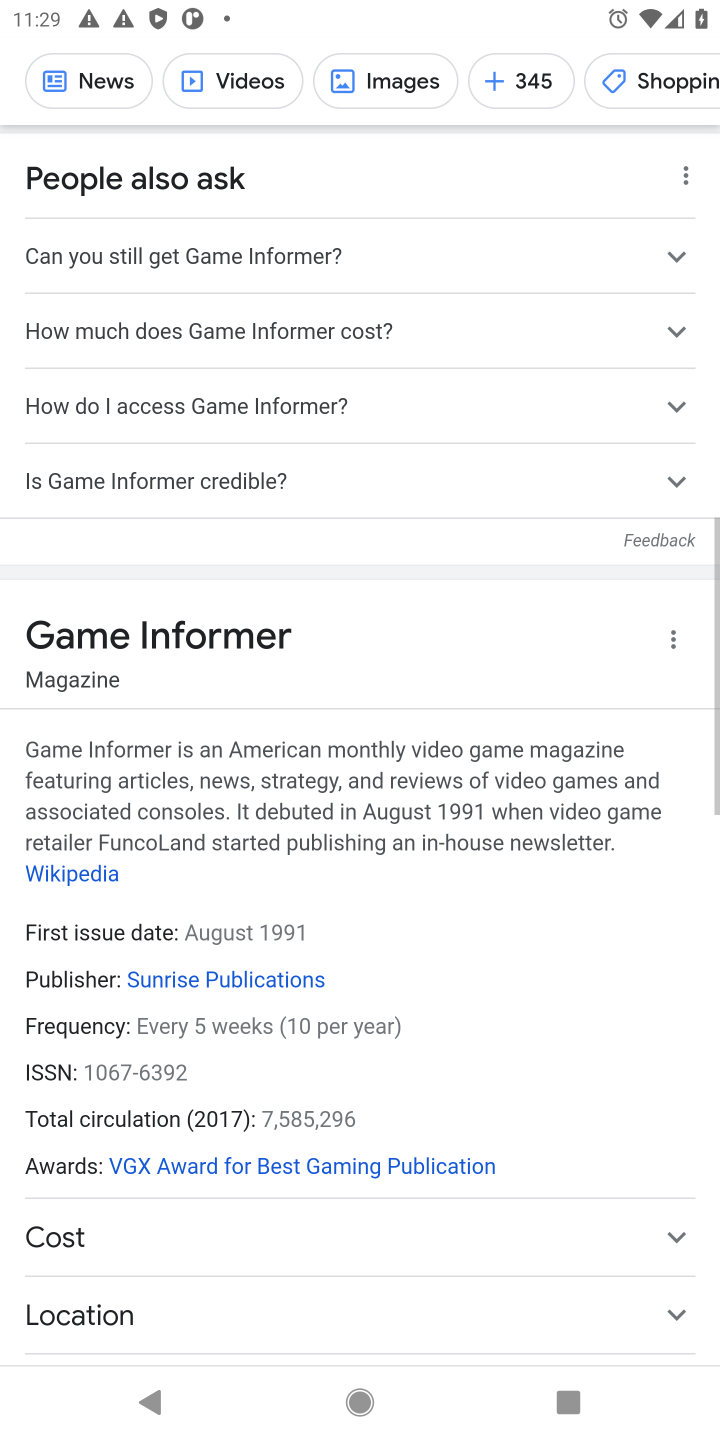
Step 32: drag from (410, 923) to (424, 487)
Your task to perform on an android device: What's the latest video from Game Informer? Image 33: 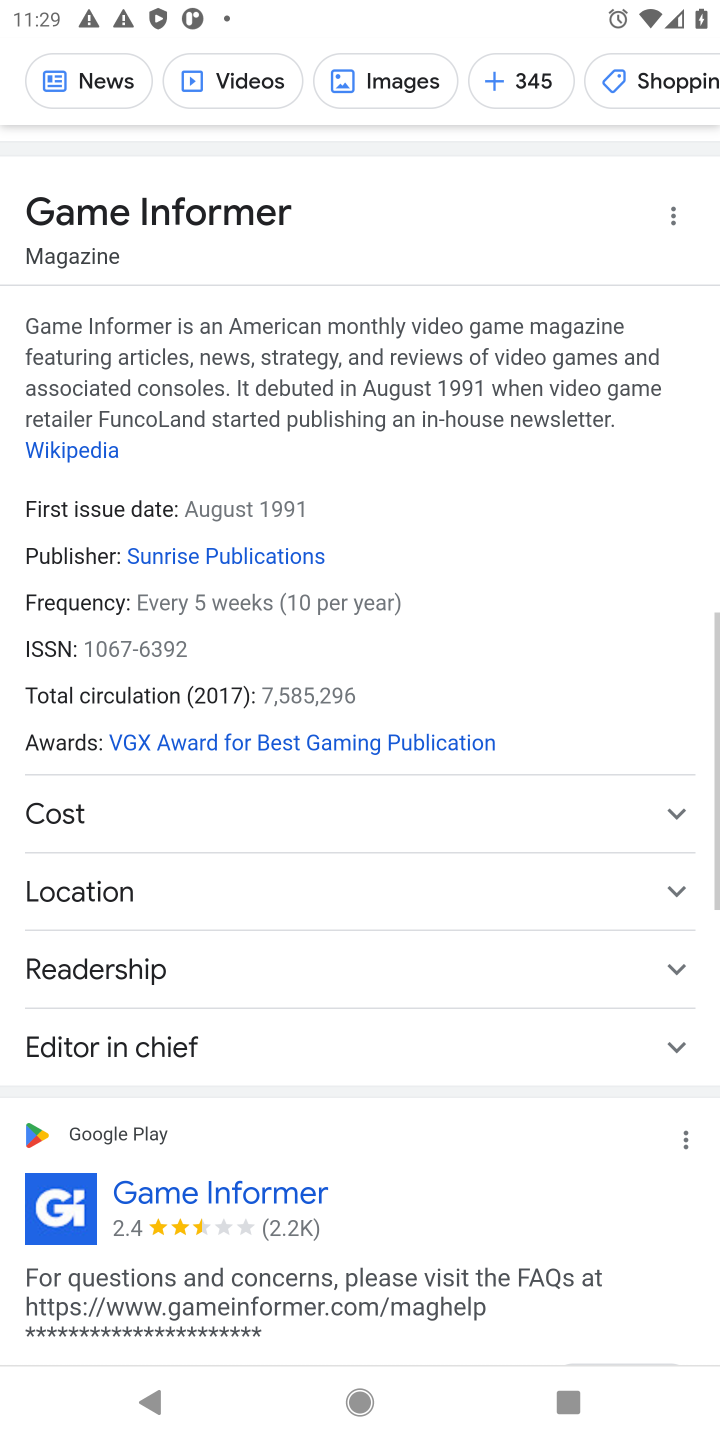
Step 33: drag from (359, 1065) to (367, 488)
Your task to perform on an android device: What's the latest video from Game Informer? Image 34: 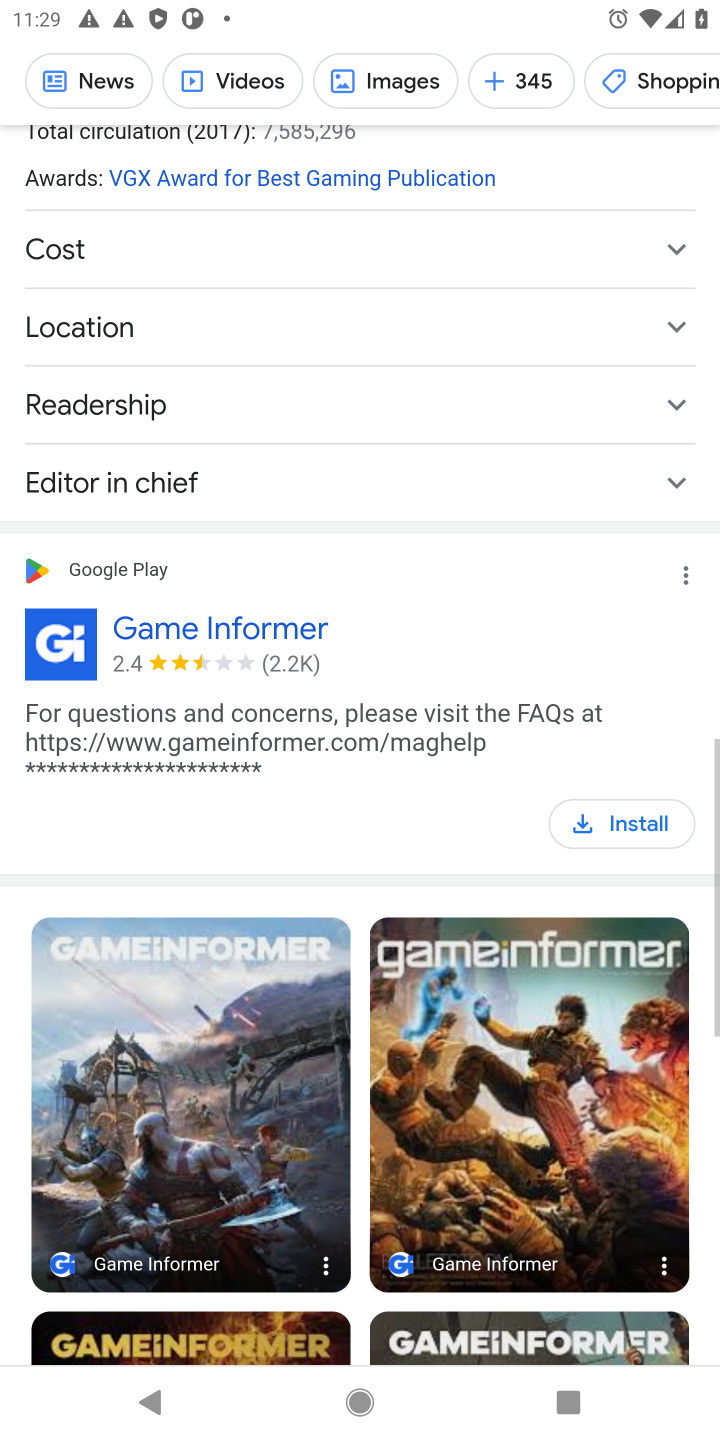
Step 34: drag from (407, 921) to (402, 312)
Your task to perform on an android device: What's the latest video from Game Informer? Image 35: 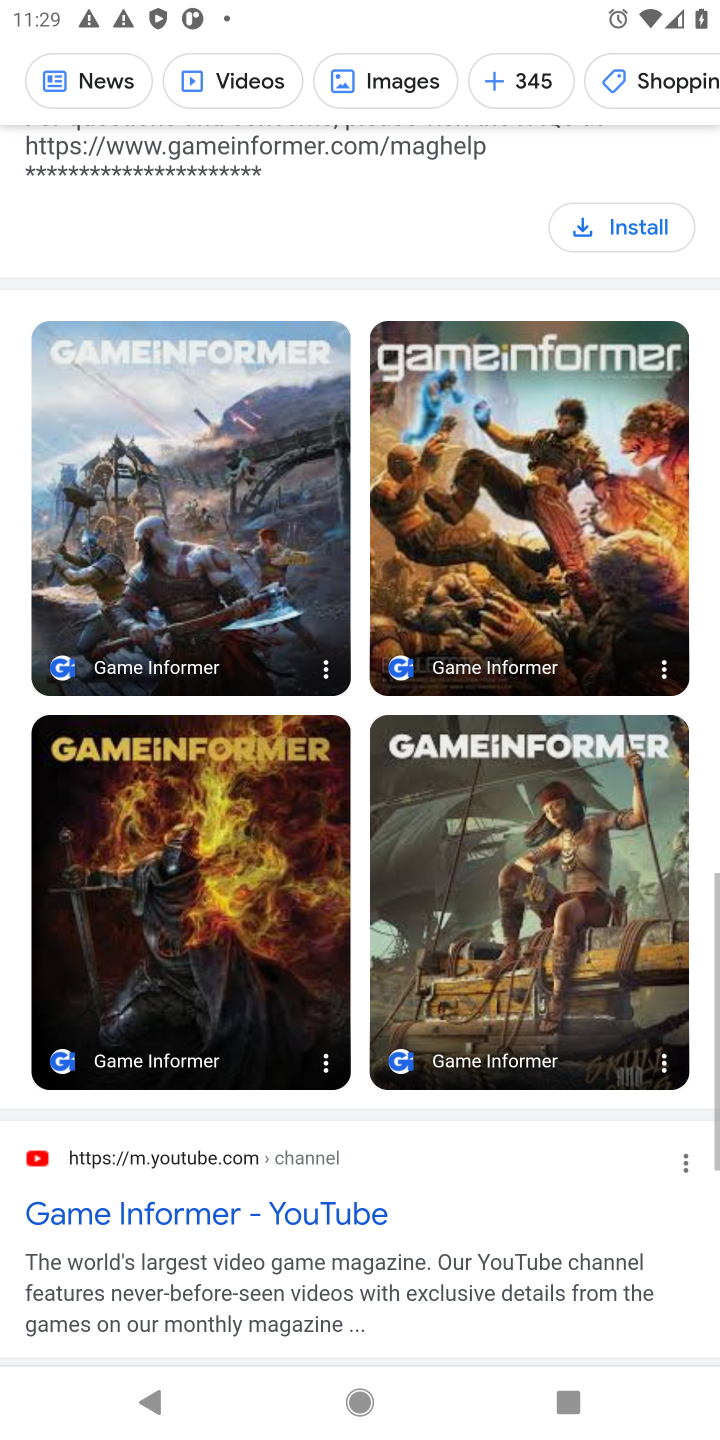
Step 35: drag from (320, 1066) to (350, 431)
Your task to perform on an android device: What's the latest video from Game Informer? Image 36: 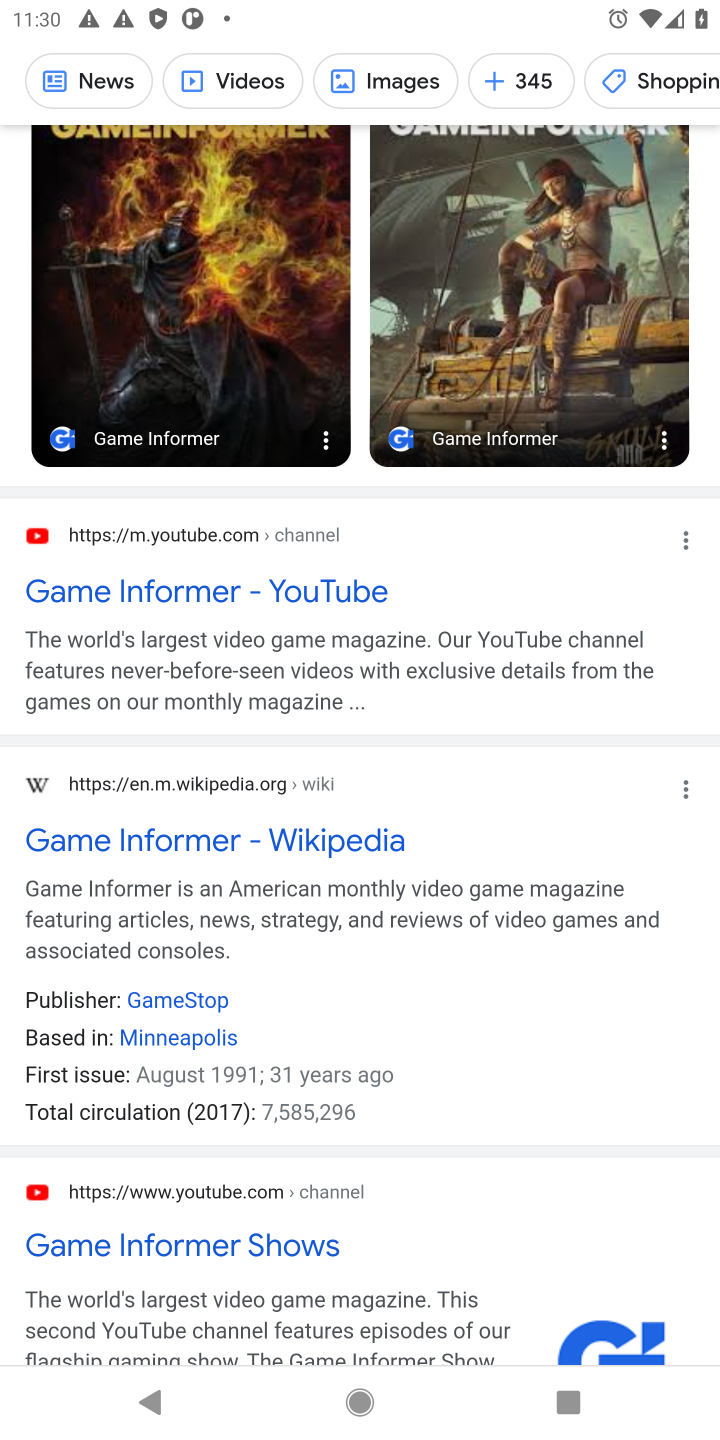
Step 36: click (240, 600)
Your task to perform on an android device: What's the latest video from Game Informer? Image 37: 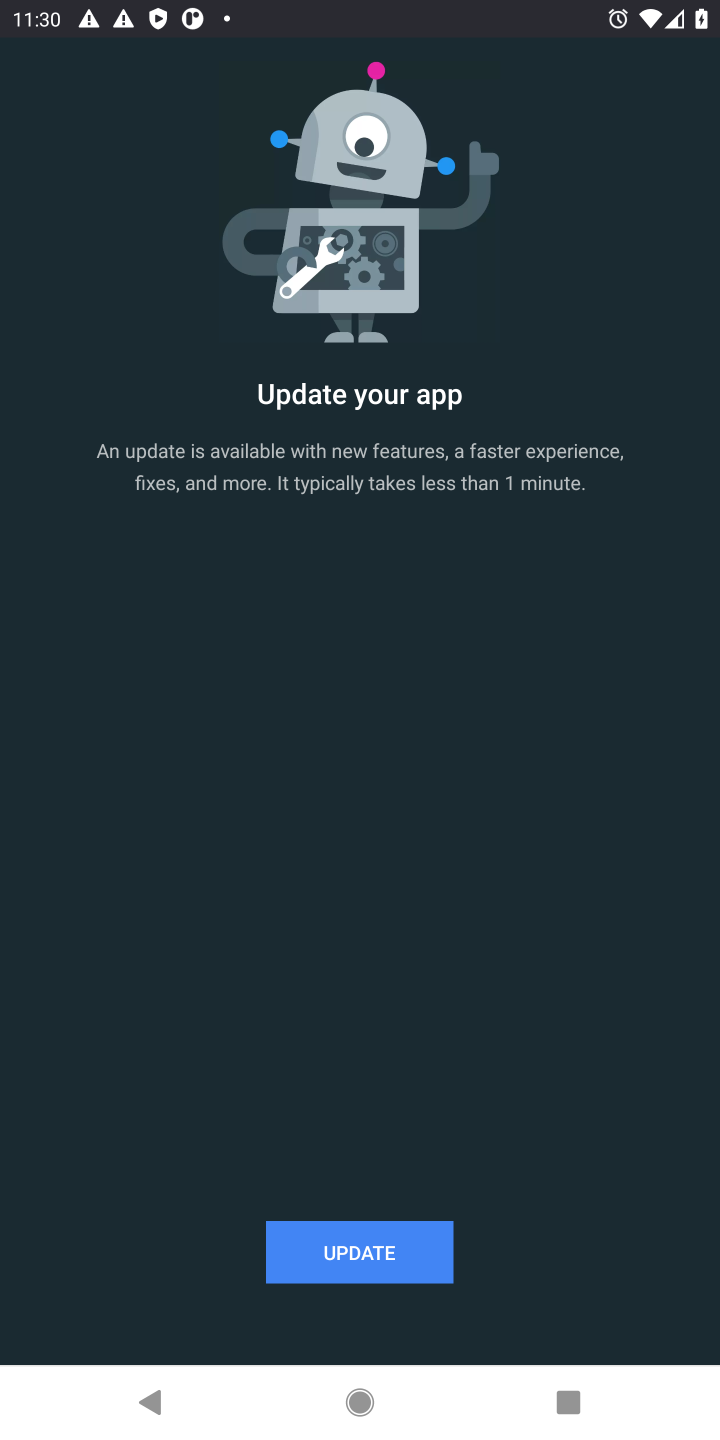
Step 37: press back button
Your task to perform on an android device: What's the latest video from Game Informer? Image 38: 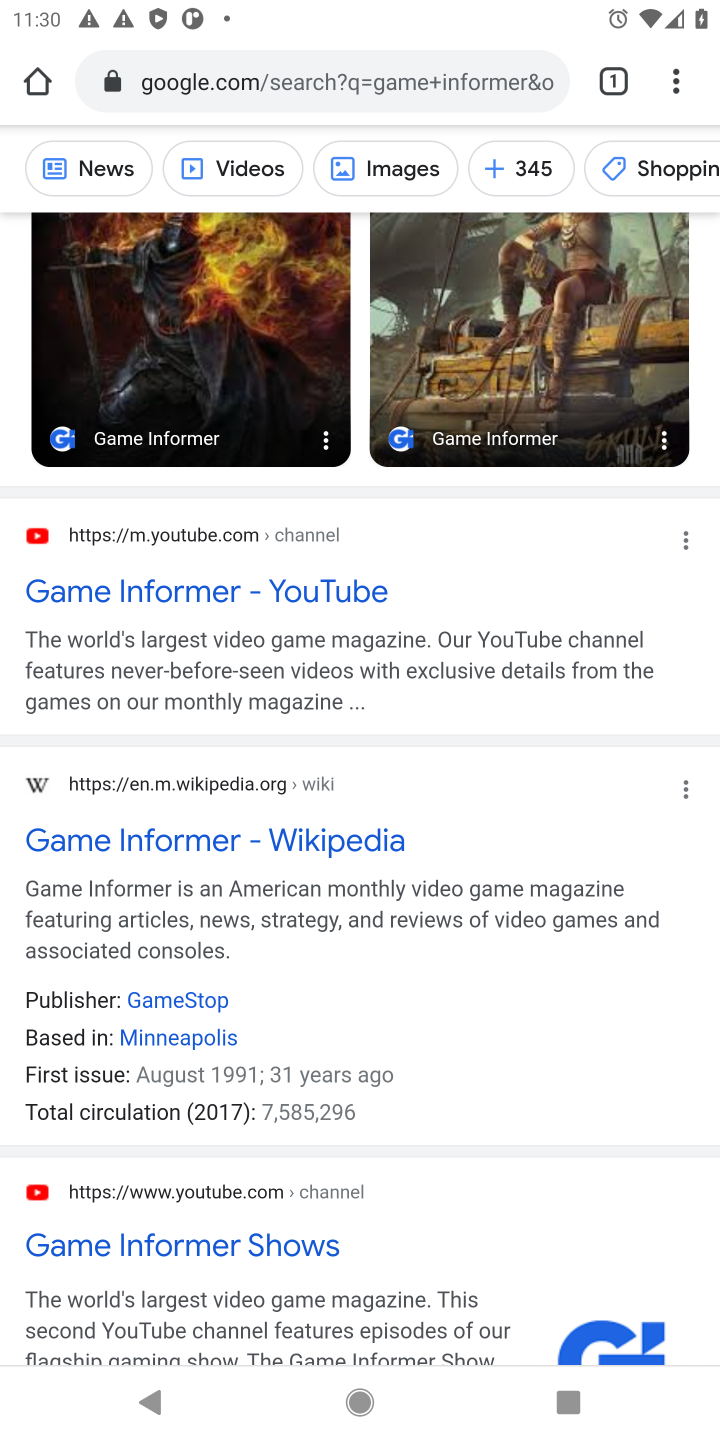
Step 38: drag from (372, 790) to (424, 1091)
Your task to perform on an android device: What's the latest video from Game Informer? Image 39: 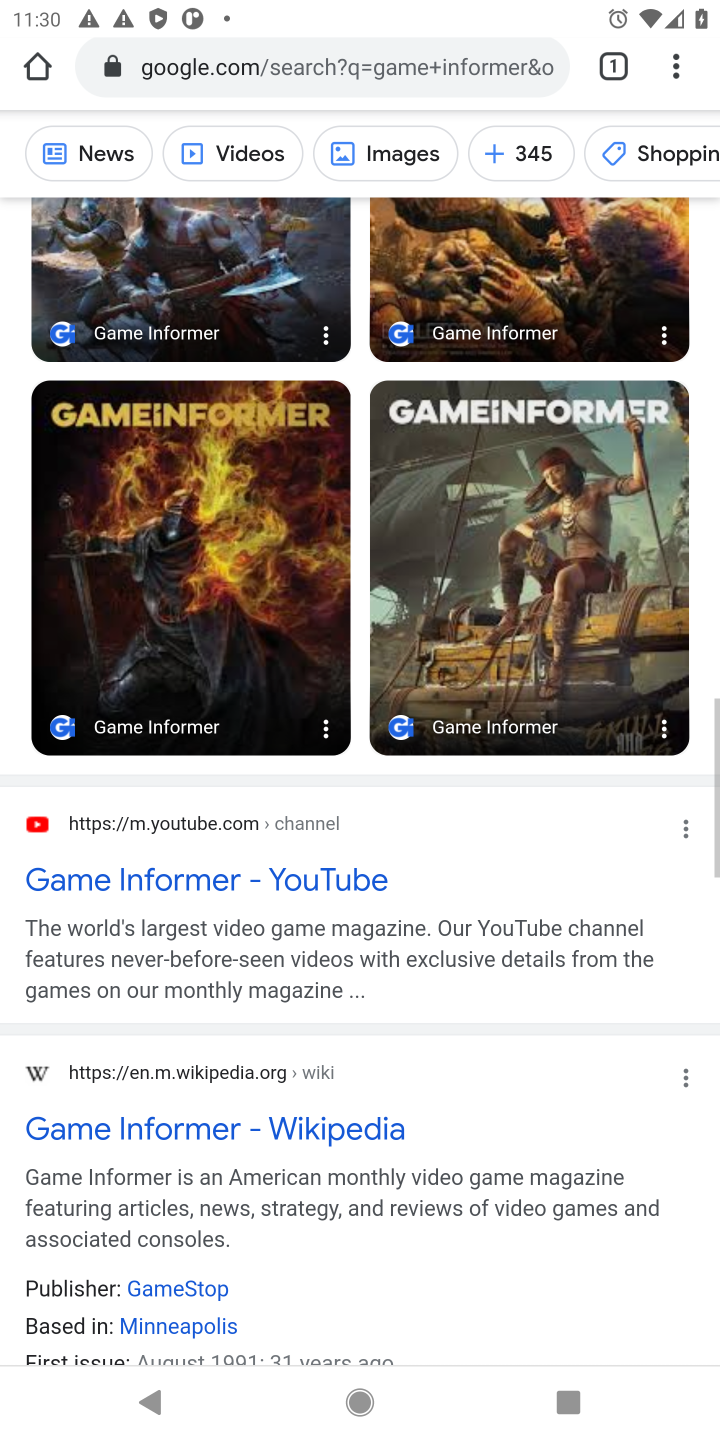
Step 39: drag from (478, 528) to (548, 1015)
Your task to perform on an android device: What's the latest video from Game Informer? Image 40: 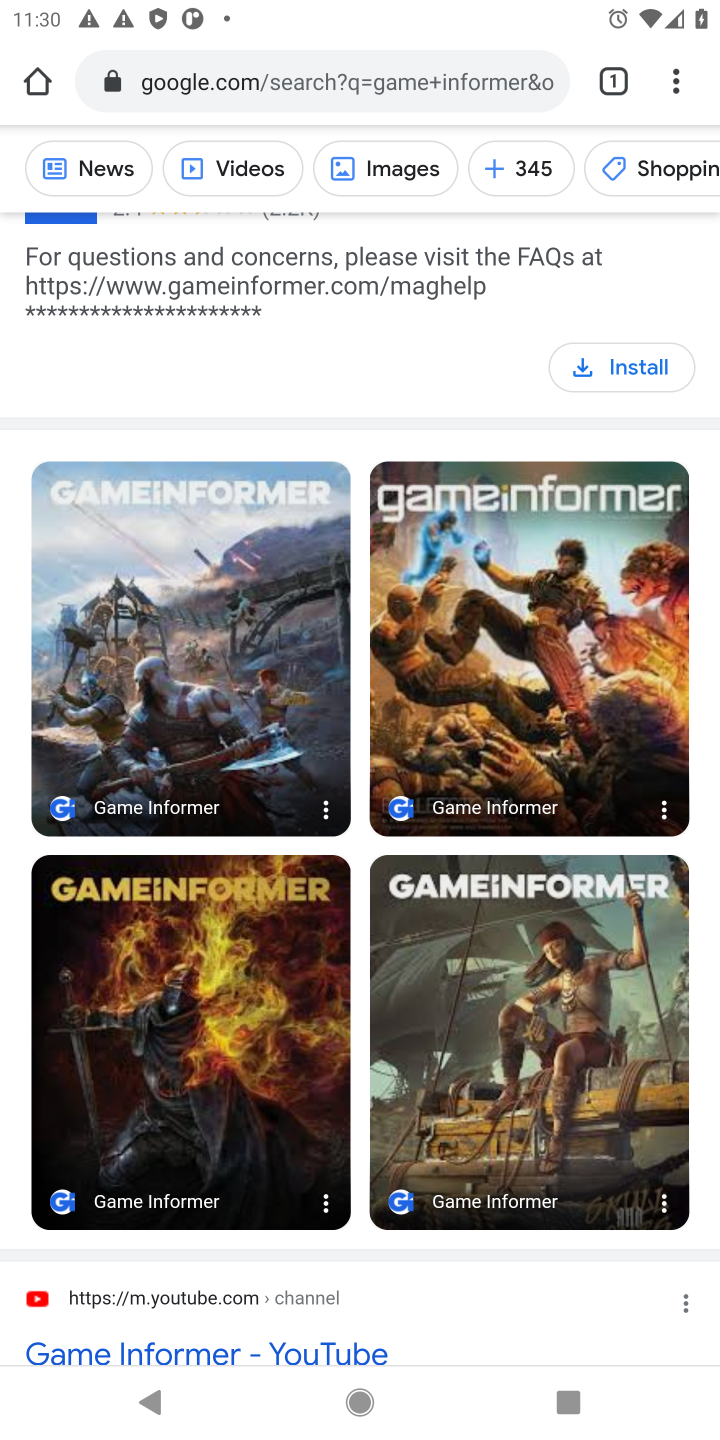
Step 40: click (227, 176)
Your task to perform on an android device: What's the latest video from Game Informer? Image 41: 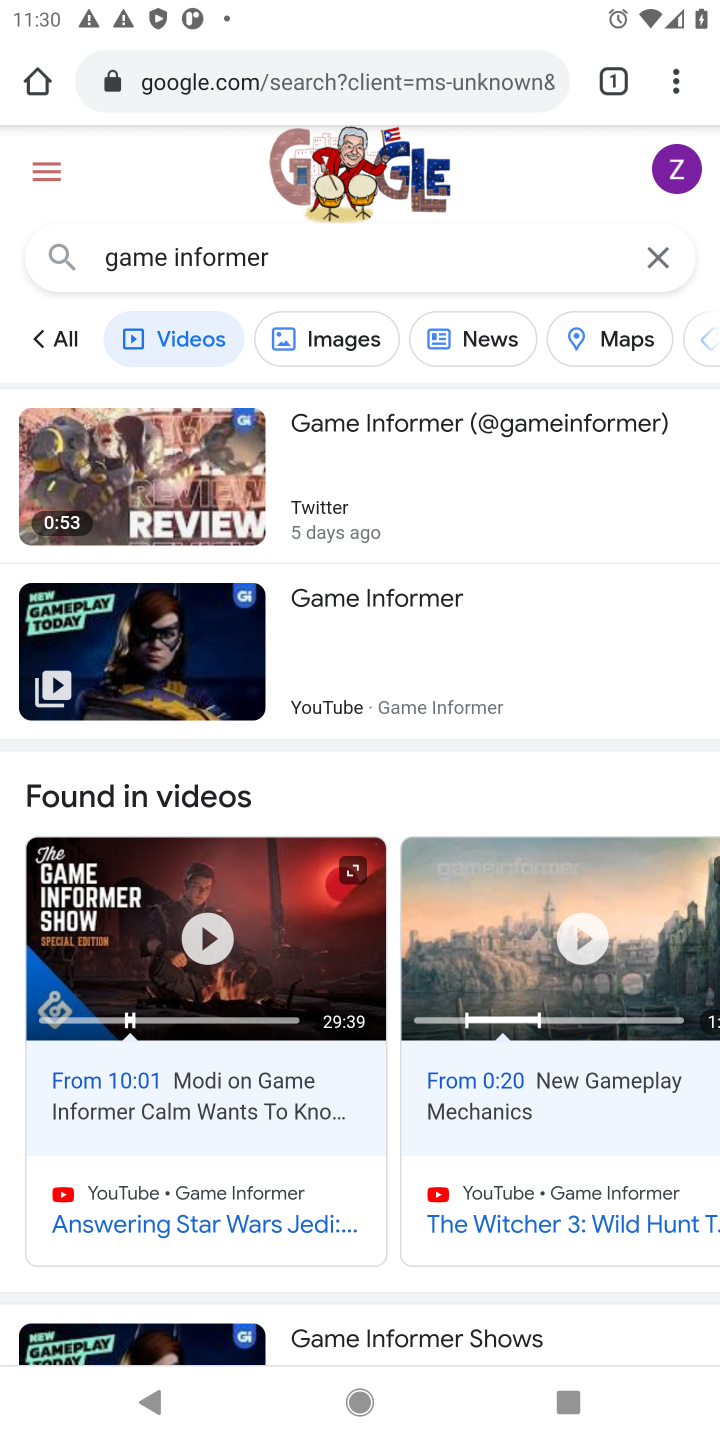
Step 41: click (213, 494)
Your task to perform on an android device: What's the latest video from Game Informer? Image 42: 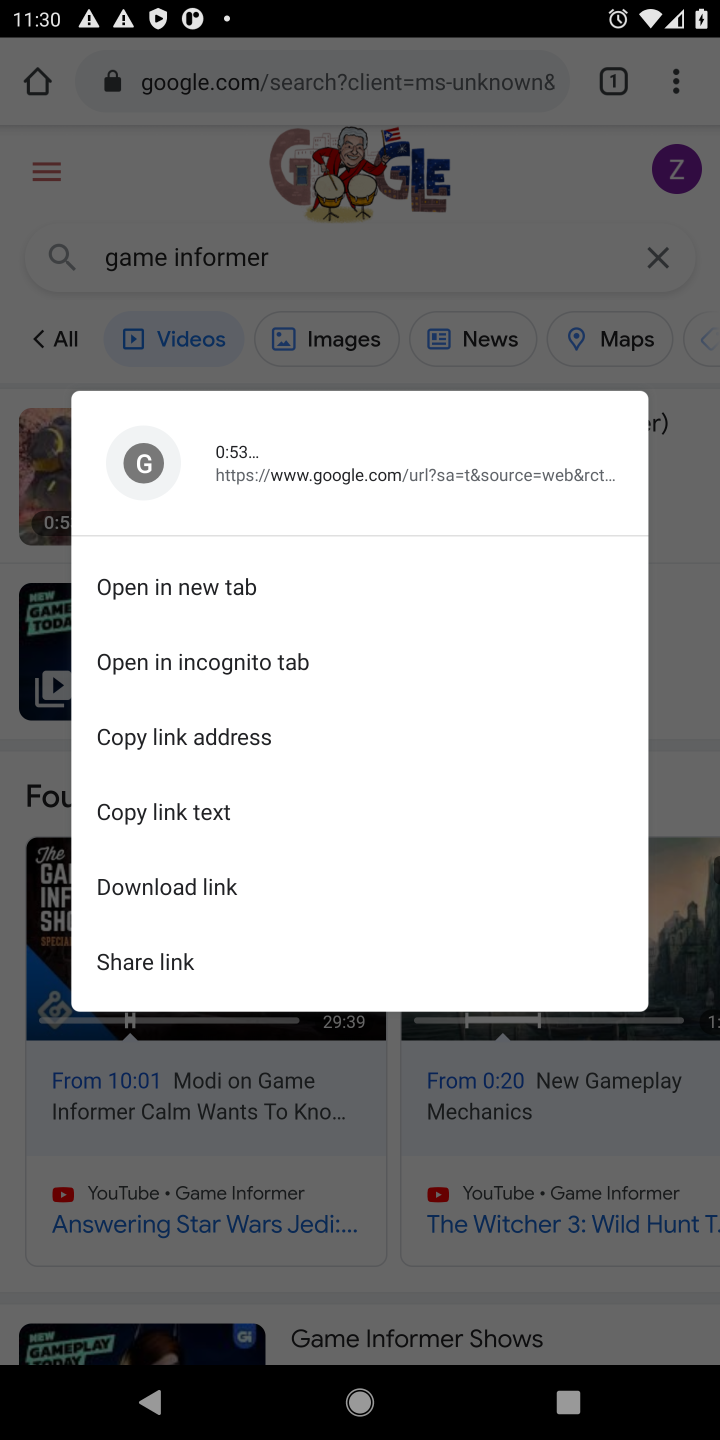
Step 42: click (332, 581)
Your task to perform on an android device: What's the latest video from Game Informer? Image 43: 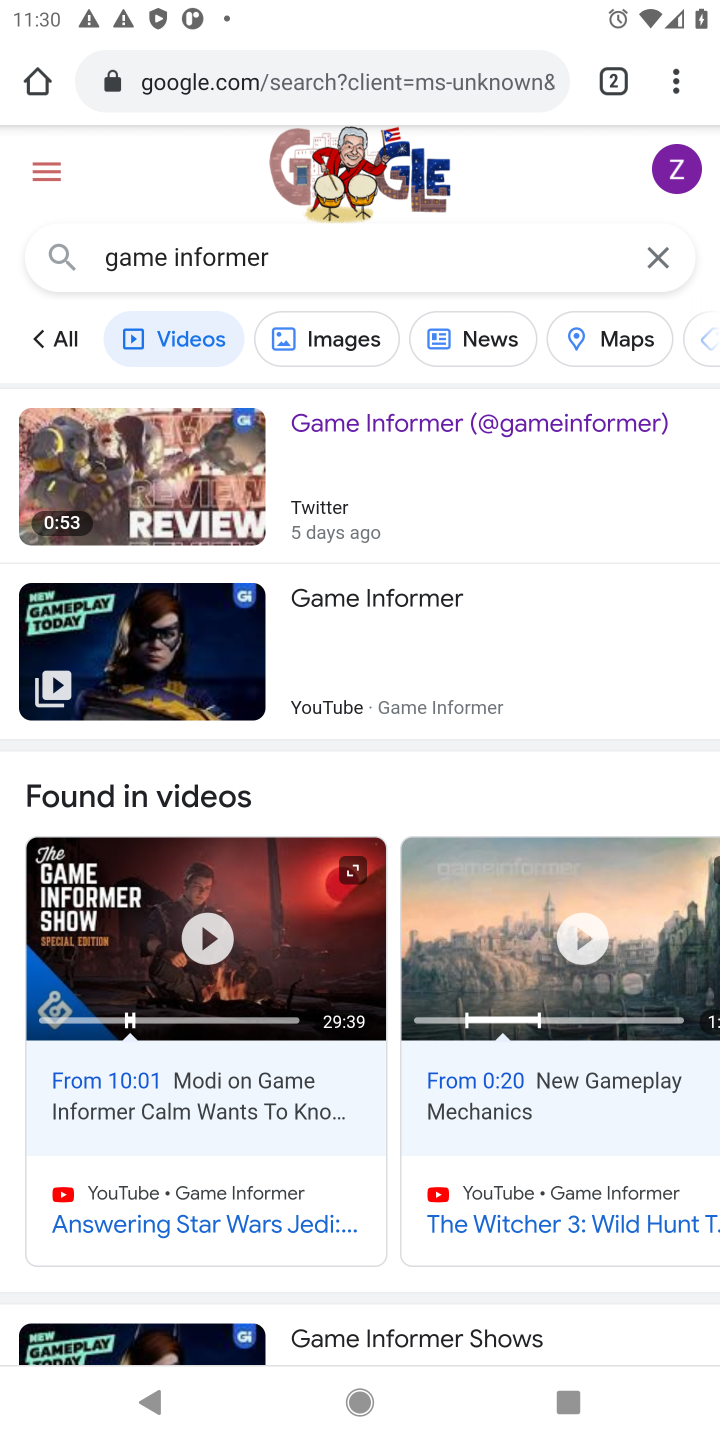
Step 43: task complete